Your task to perform on an android device: Clear all items from cart on costco.com. Add "razer blade" to the cart on costco.com, then select checkout. Image 0: 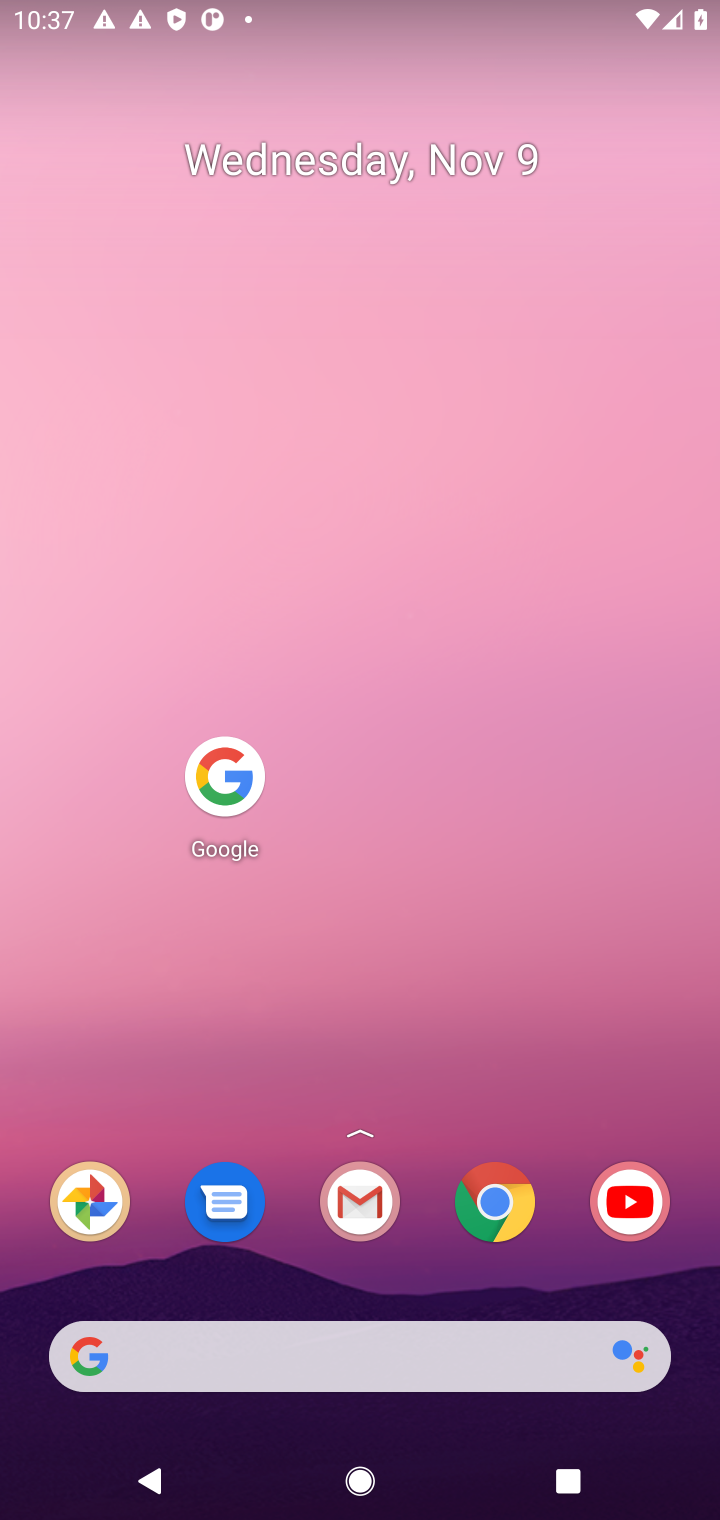
Step 0: press home button
Your task to perform on an android device: Clear all items from cart on costco.com. Add "razer blade" to the cart on costco.com, then select checkout. Image 1: 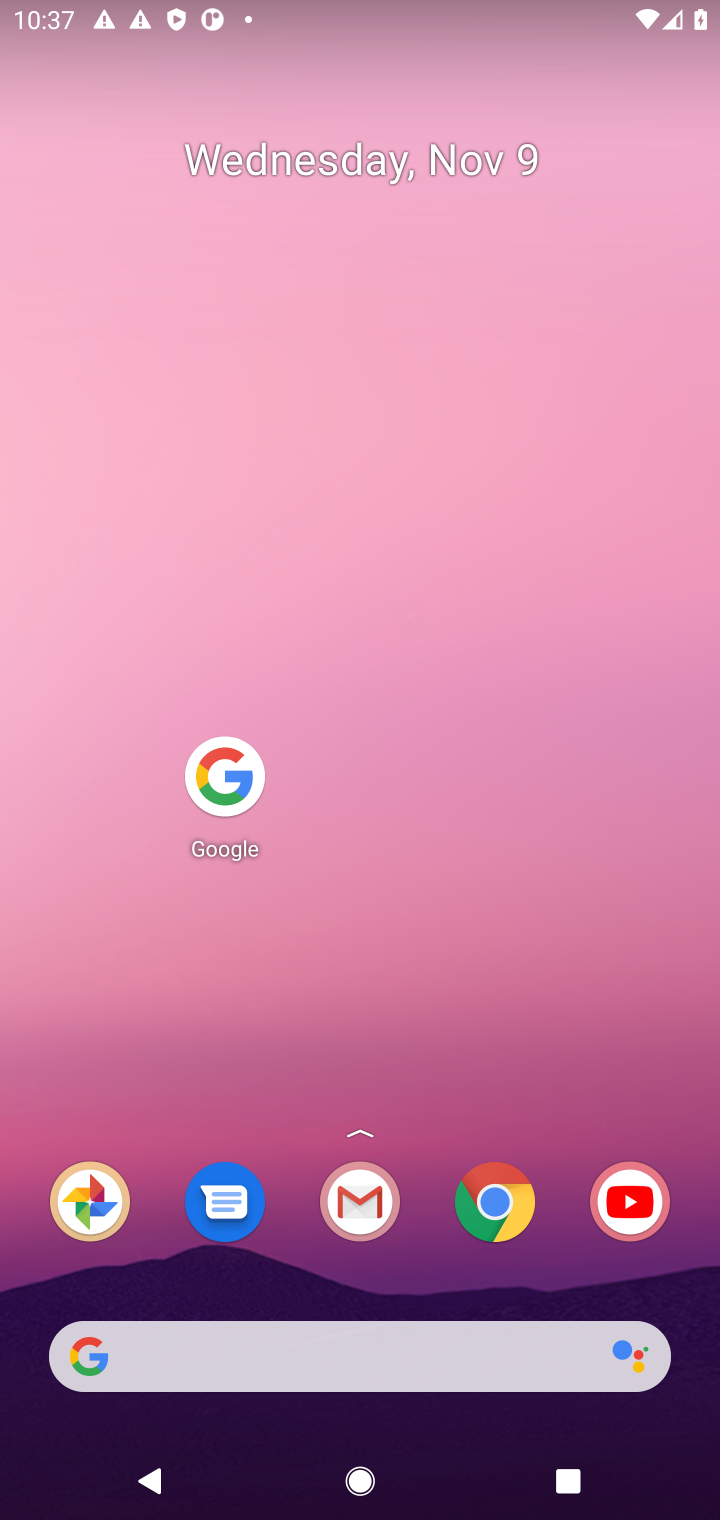
Step 1: click (233, 790)
Your task to perform on an android device: Clear all items from cart on costco.com. Add "razer blade" to the cart on costco.com, then select checkout. Image 2: 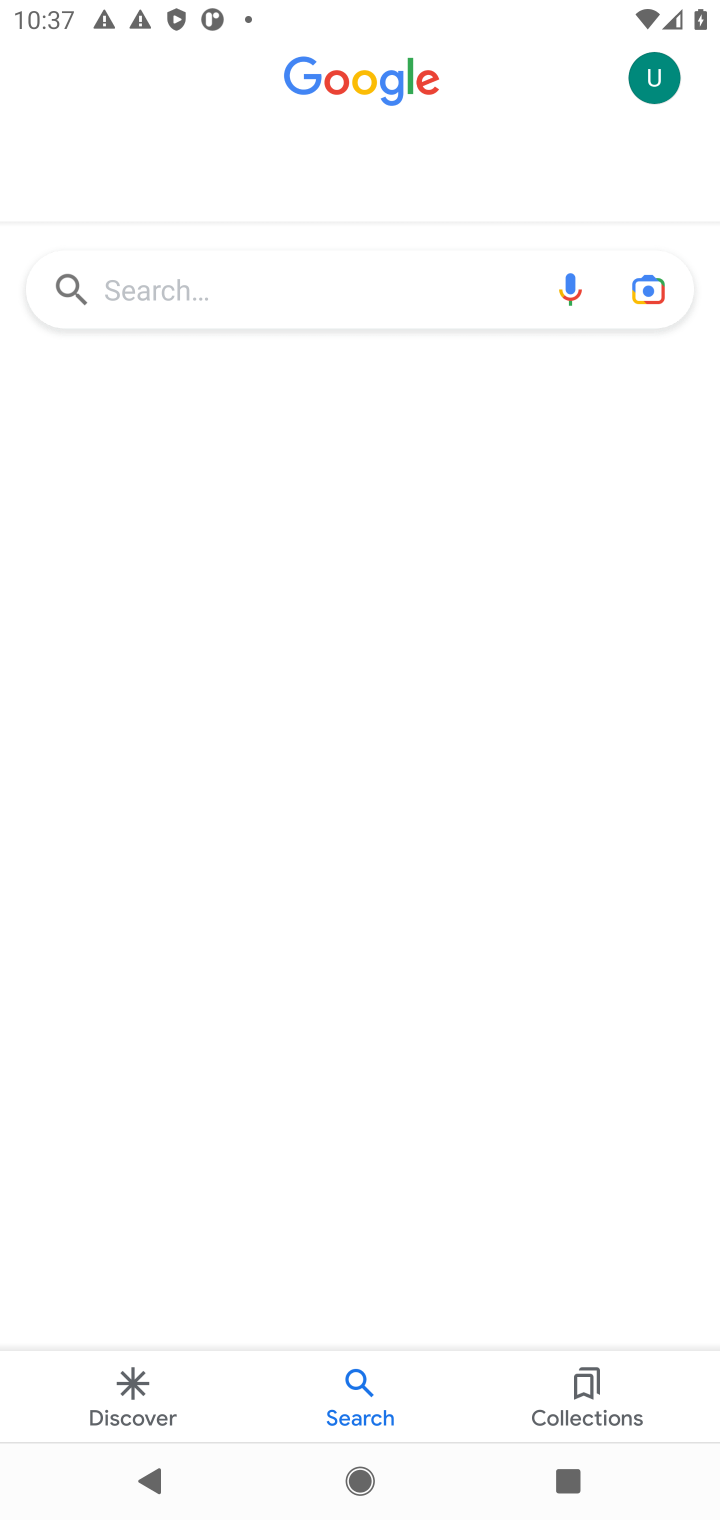
Step 2: click (233, 792)
Your task to perform on an android device: Clear all items from cart on costco.com. Add "razer blade" to the cart on costco.com, then select checkout. Image 3: 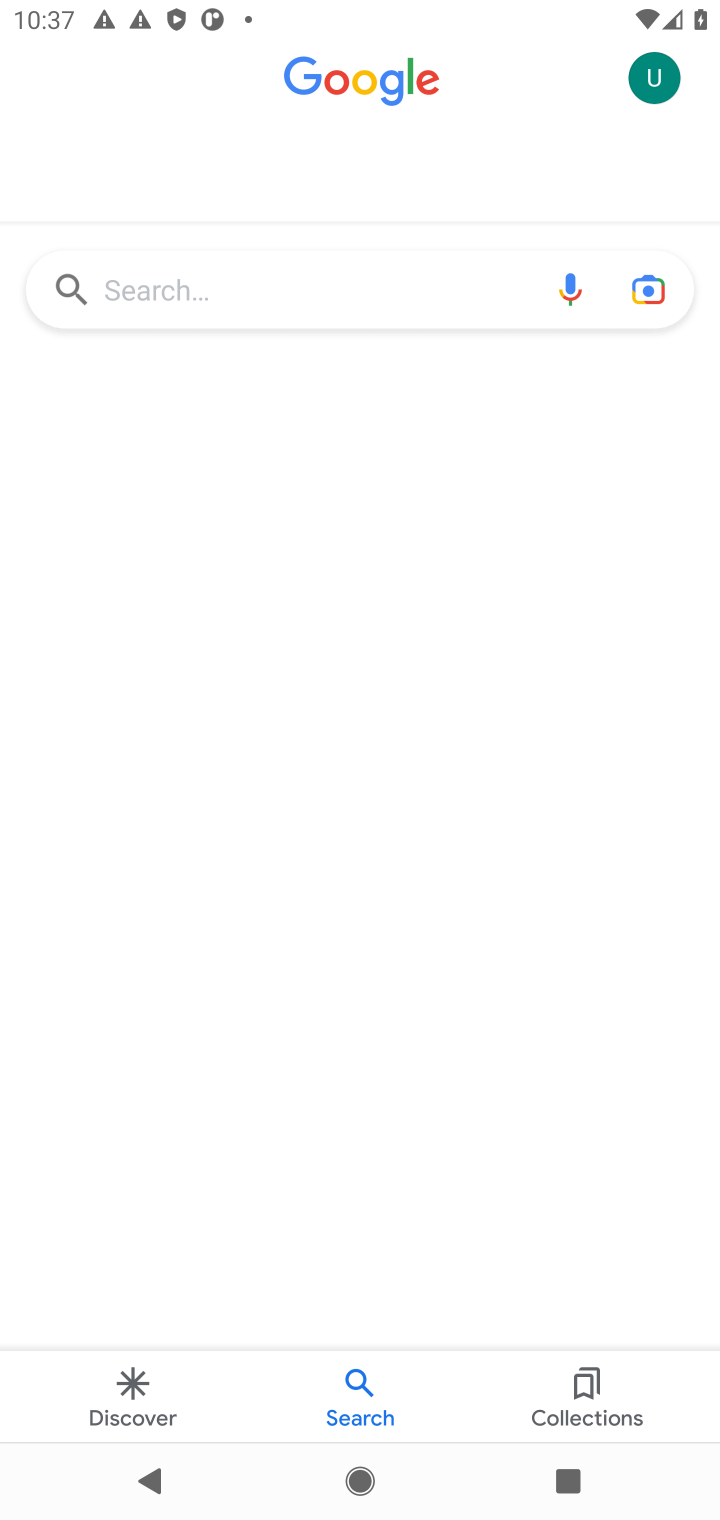
Step 3: click (355, 1372)
Your task to perform on an android device: Clear all items from cart on costco.com. Add "razer blade" to the cart on costco.com, then select checkout. Image 4: 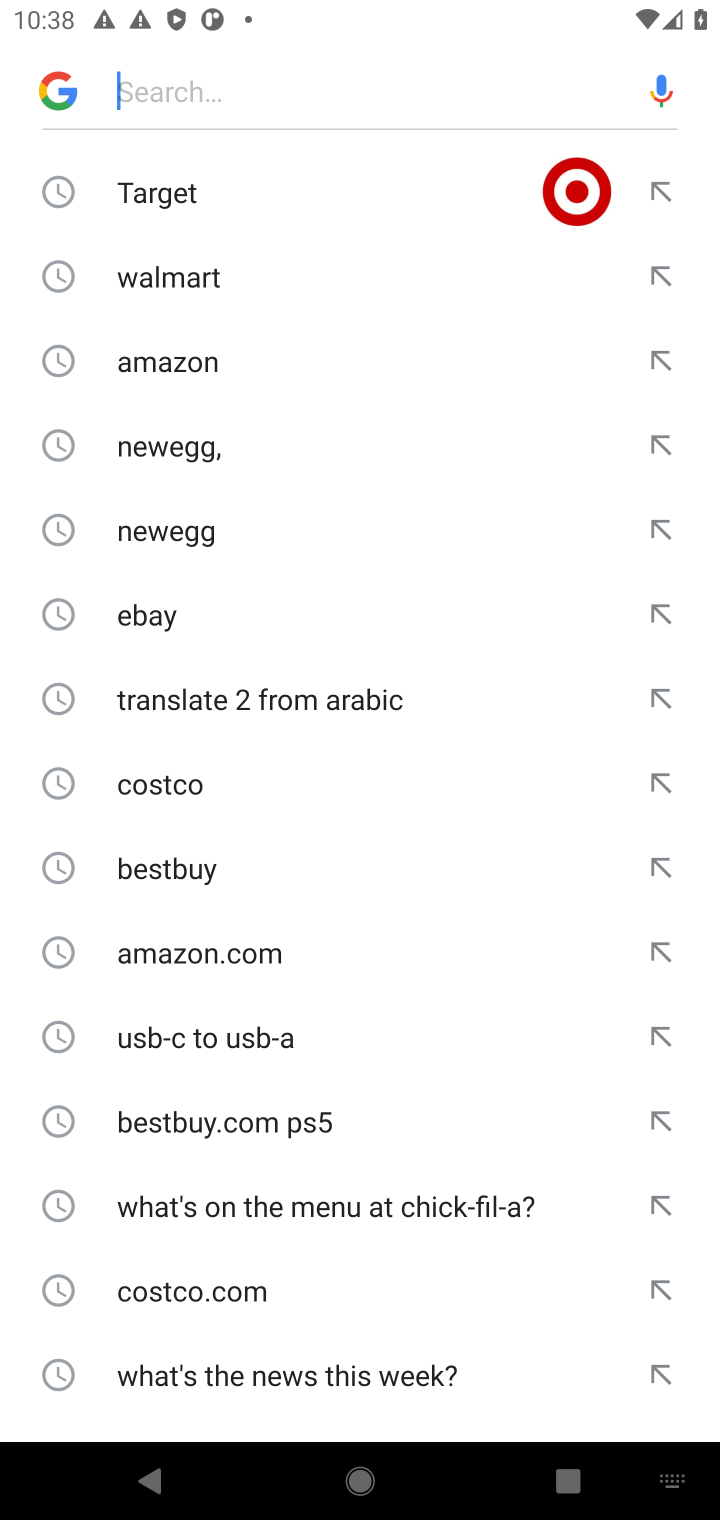
Step 4: click (148, 780)
Your task to perform on an android device: Clear all items from cart on costco.com. Add "razer blade" to the cart on costco.com, then select checkout. Image 5: 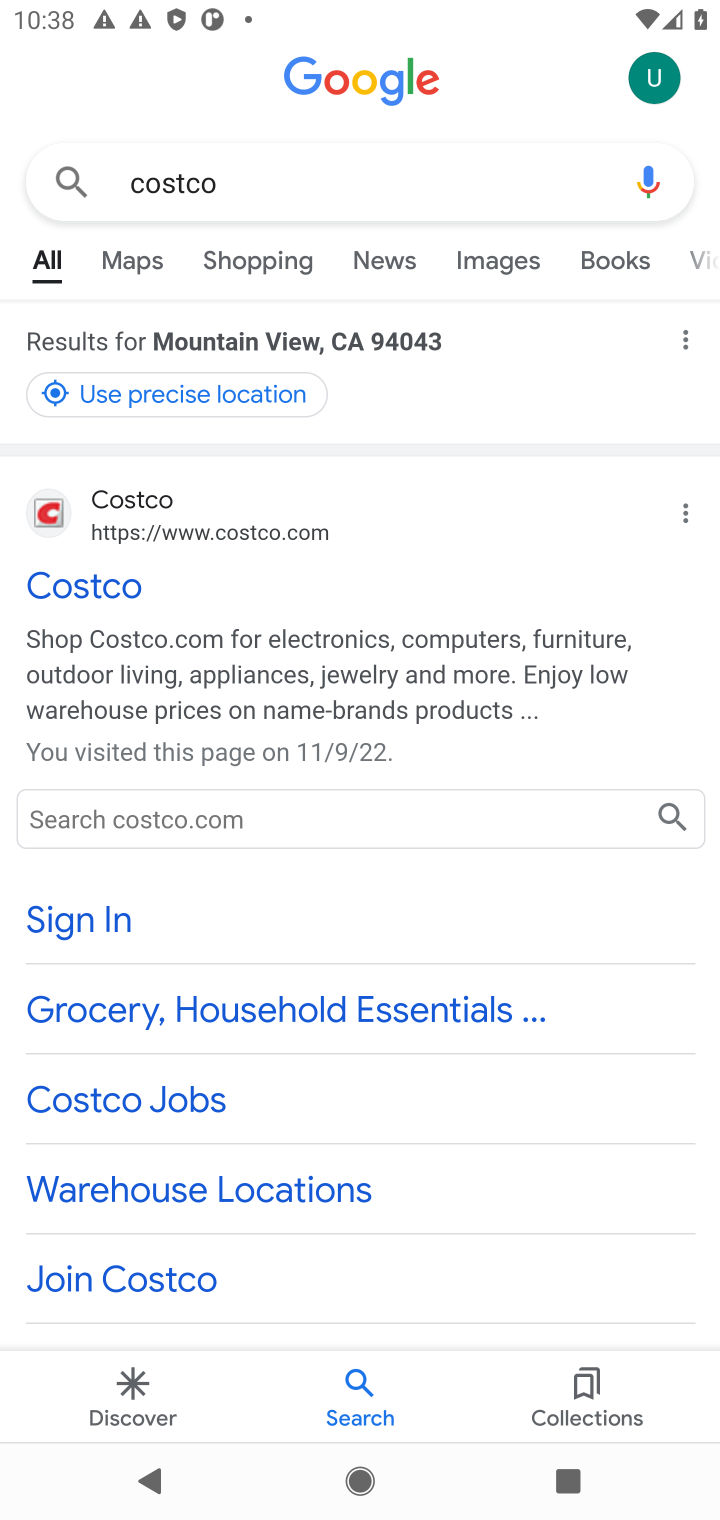
Step 5: click (104, 588)
Your task to perform on an android device: Clear all items from cart on costco.com. Add "razer blade" to the cart on costco.com, then select checkout. Image 6: 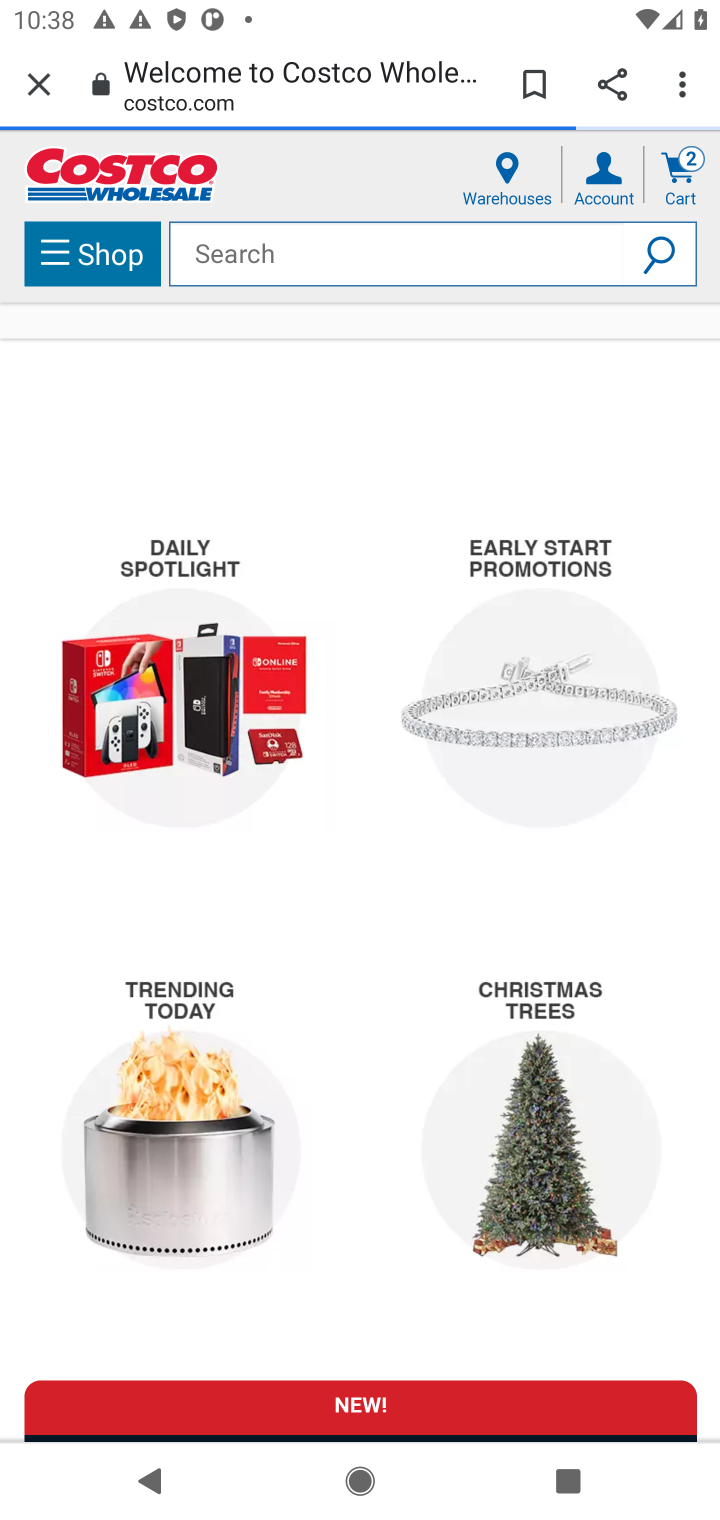
Step 6: click (337, 241)
Your task to perform on an android device: Clear all items from cart on costco.com. Add "razer blade" to the cart on costco.com, then select checkout. Image 7: 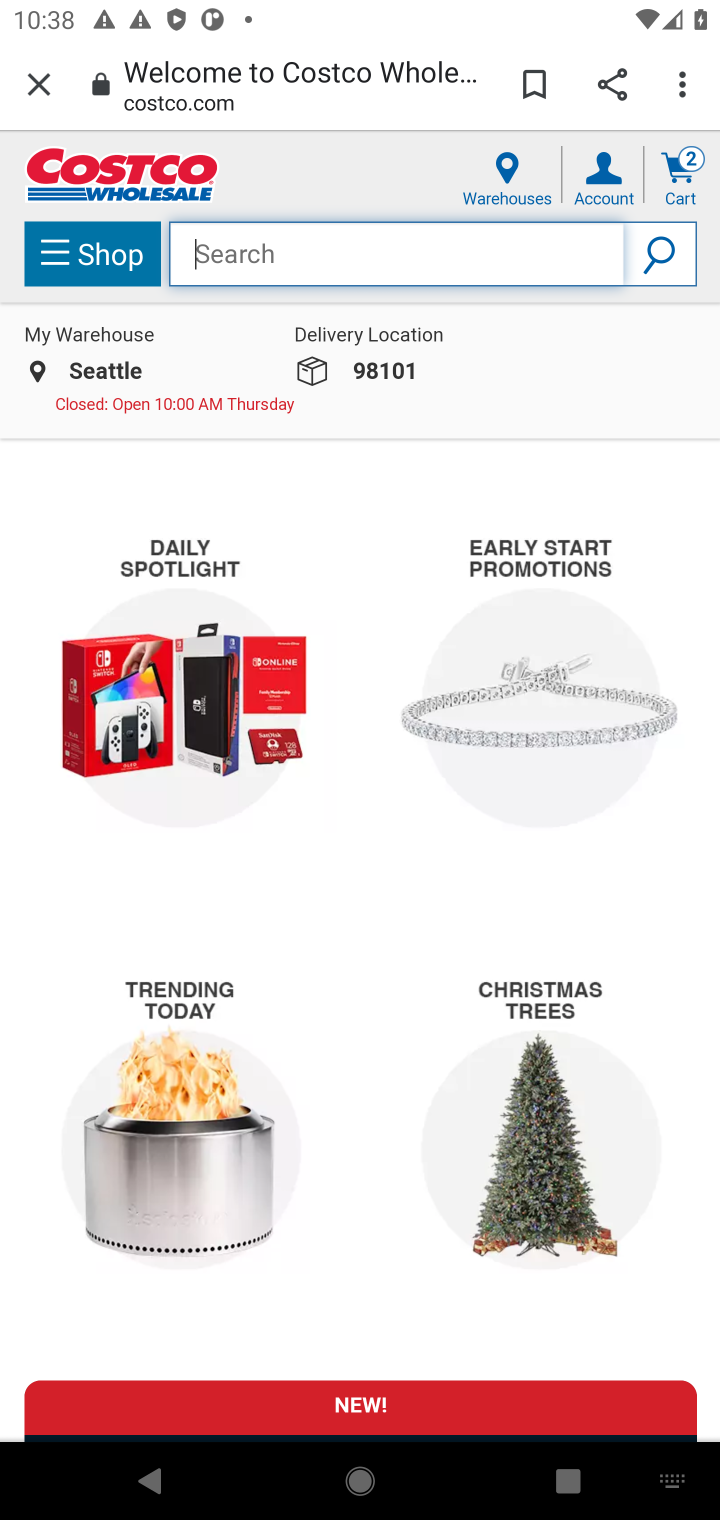
Step 7: type "razer blade"
Your task to perform on an android device: Clear all items from cart on costco.com. Add "razer blade" to the cart on costco.com, then select checkout. Image 8: 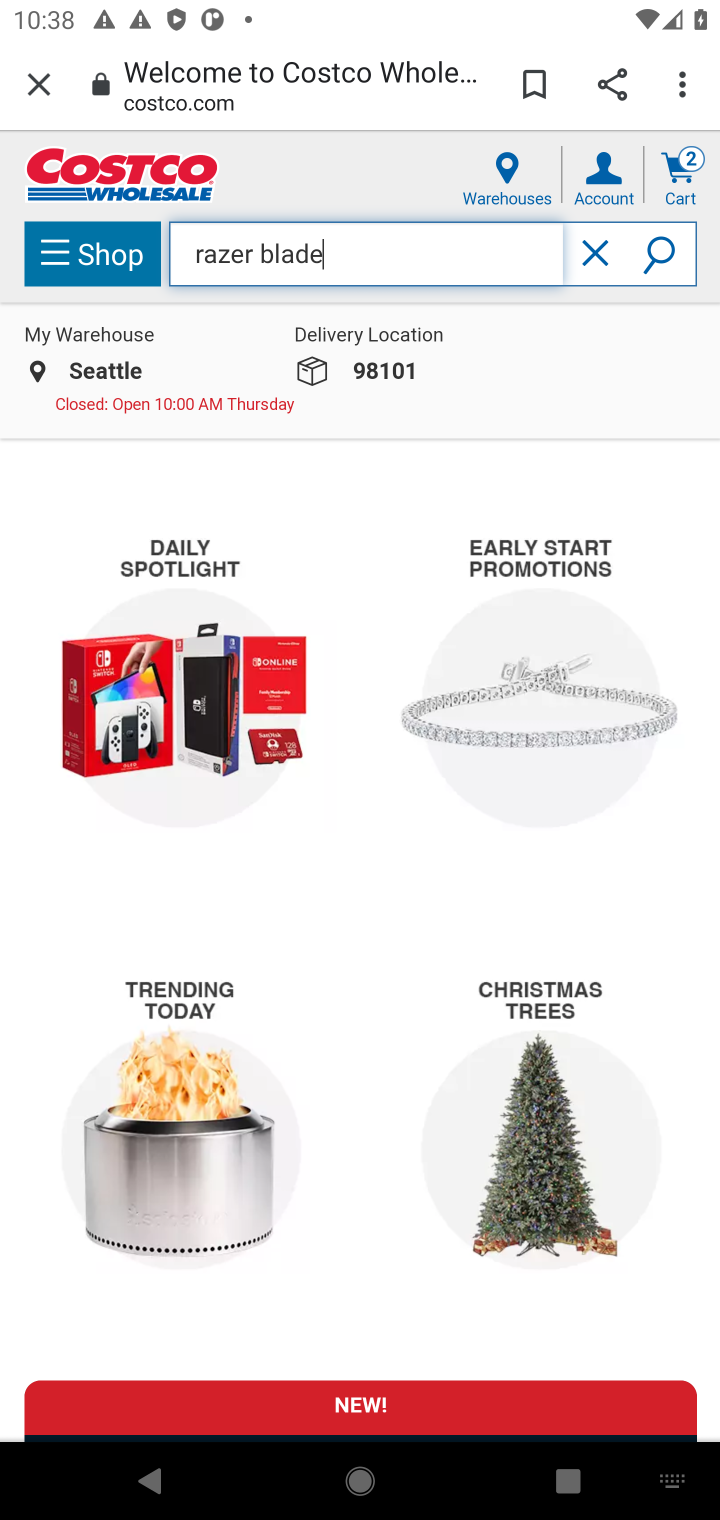
Step 8: press enter
Your task to perform on an android device: Clear all items from cart on costco.com. Add "razer blade" to the cart on costco.com, then select checkout. Image 9: 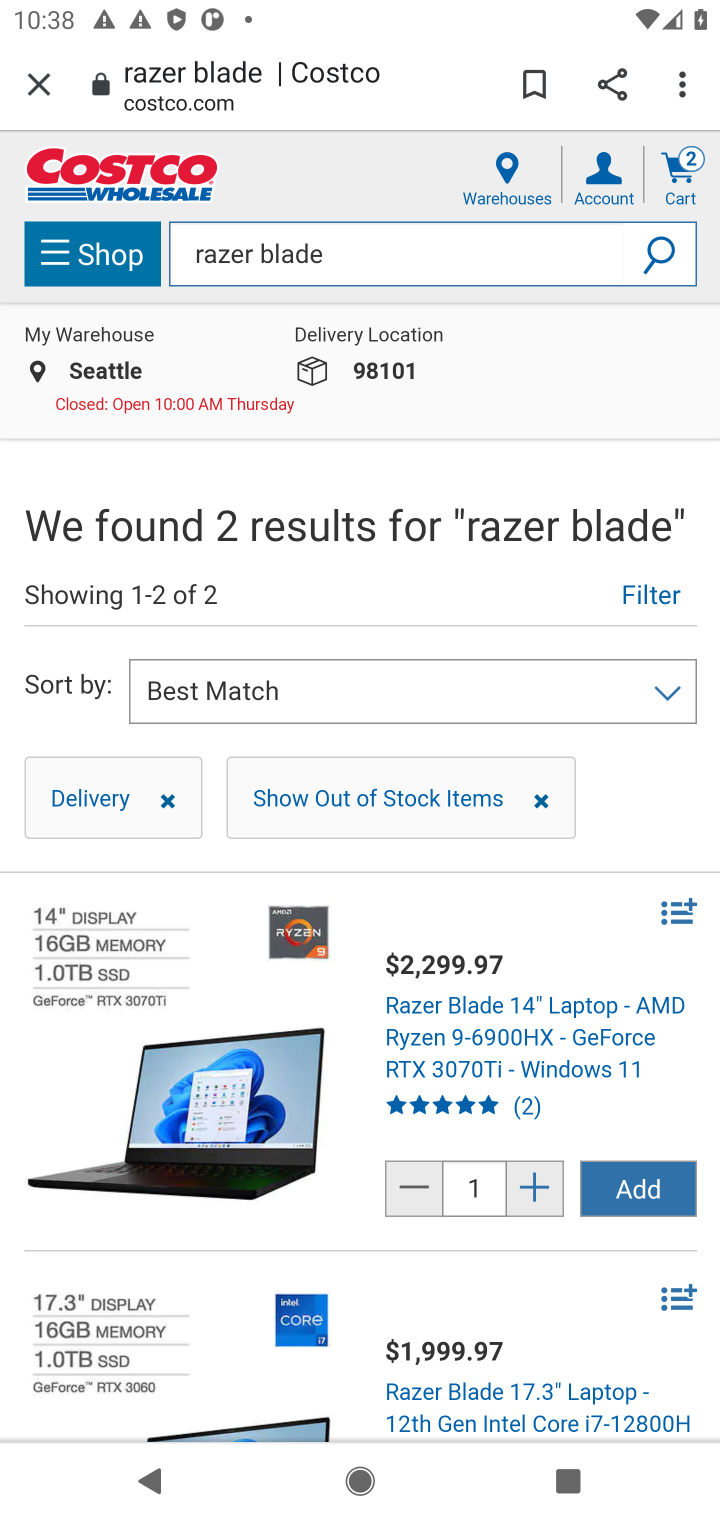
Step 9: click (644, 1196)
Your task to perform on an android device: Clear all items from cart on costco.com. Add "razer blade" to the cart on costco.com, then select checkout. Image 10: 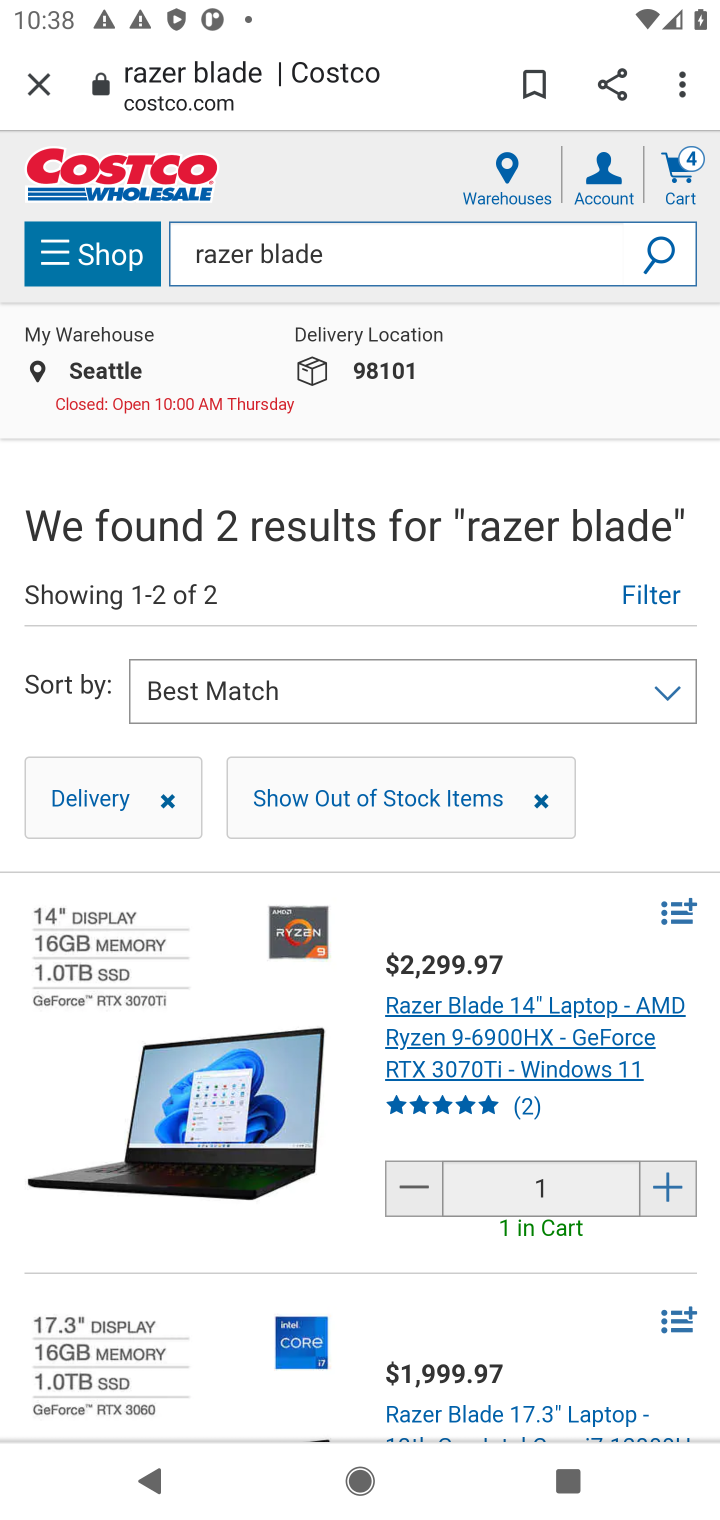
Step 10: click (677, 183)
Your task to perform on an android device: Clear all items from cart on costco.com. Add "razer blade" to the cart on costco.com, then select checkout. Image 11: 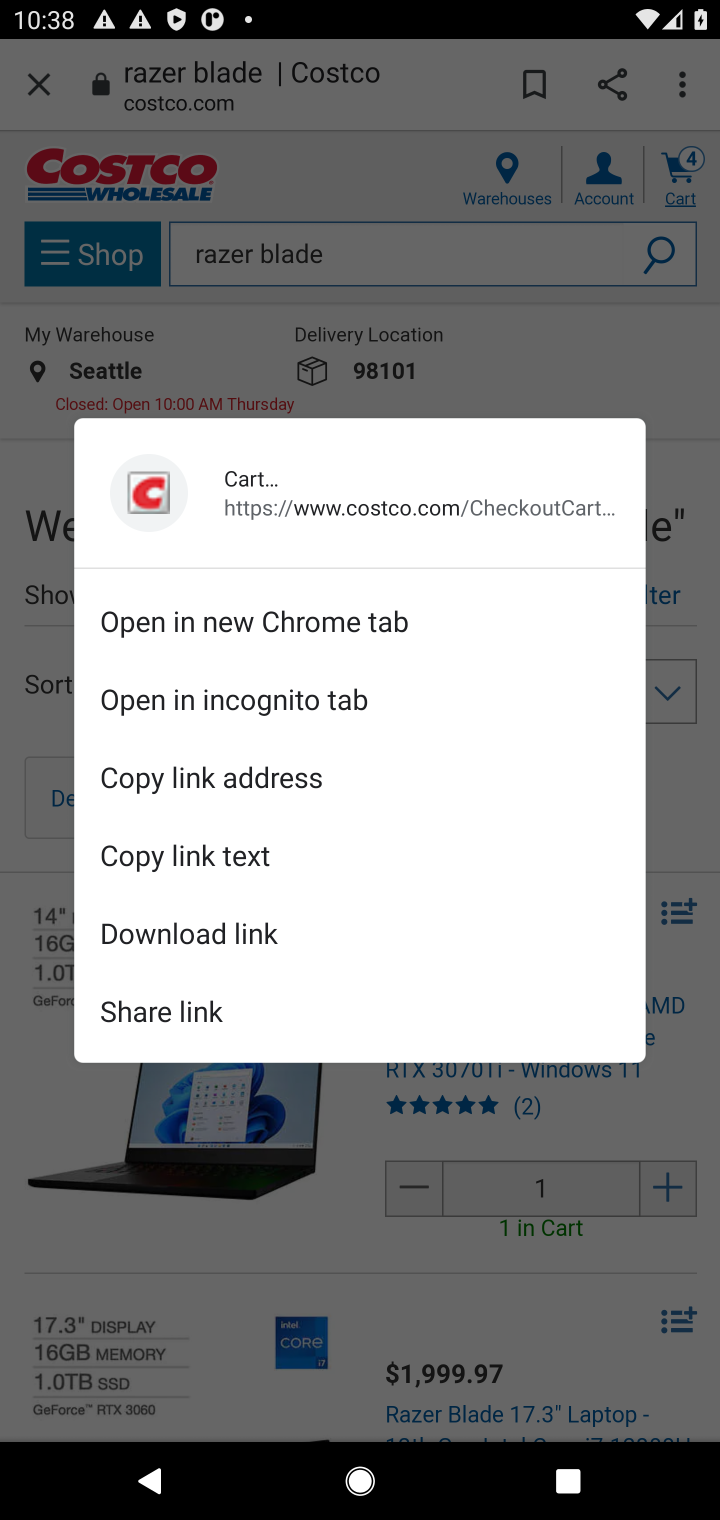
Step 11: click (678, 168)
Your task to perform on an android device: Clear all items from cart on costco.com. Add "razer blade" to the cart on costco.com, then select checkout. Image 12: 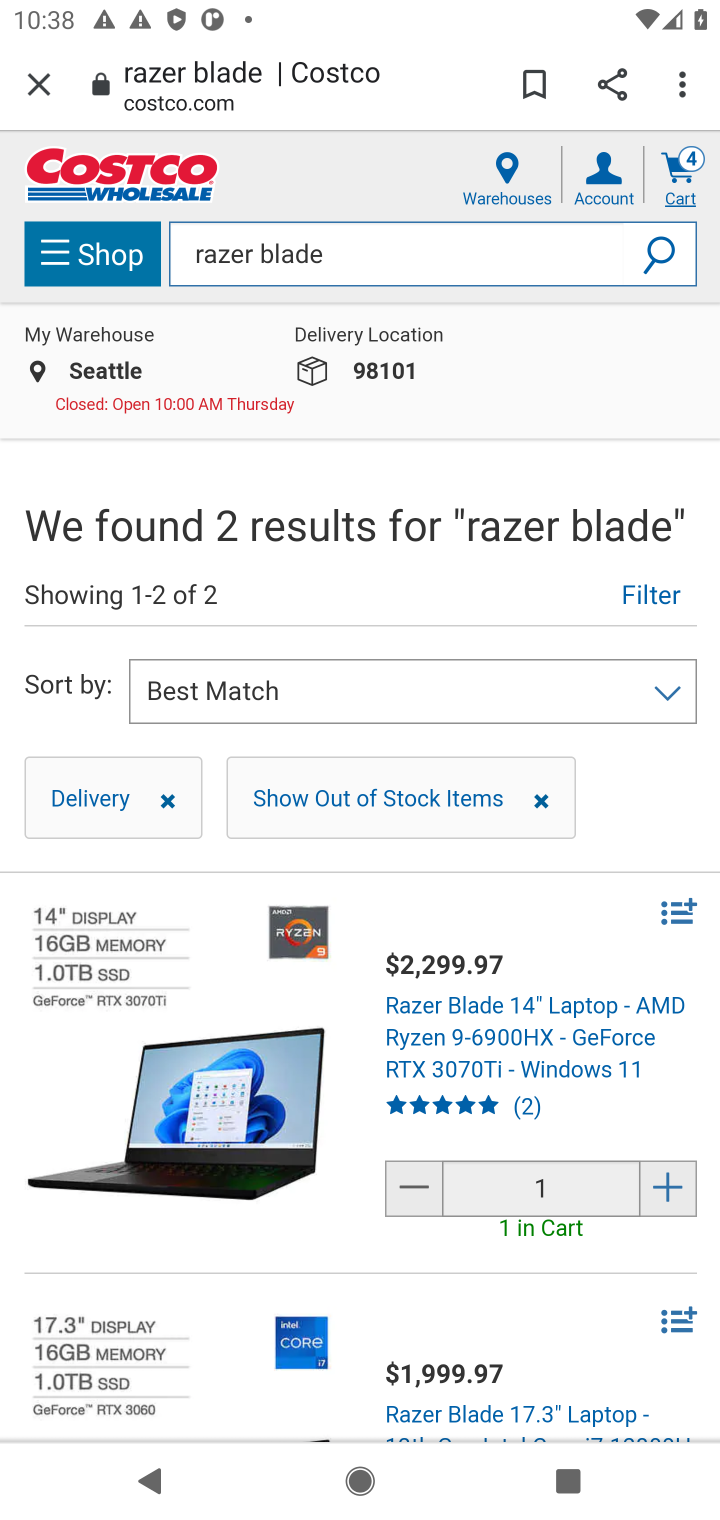
Step 12: click (684, 162)
Your task to perform on an android device: Clear all items from cart on costco.com. Add "razer blade" to the cart on costco.com, then select checkout. Image 13: 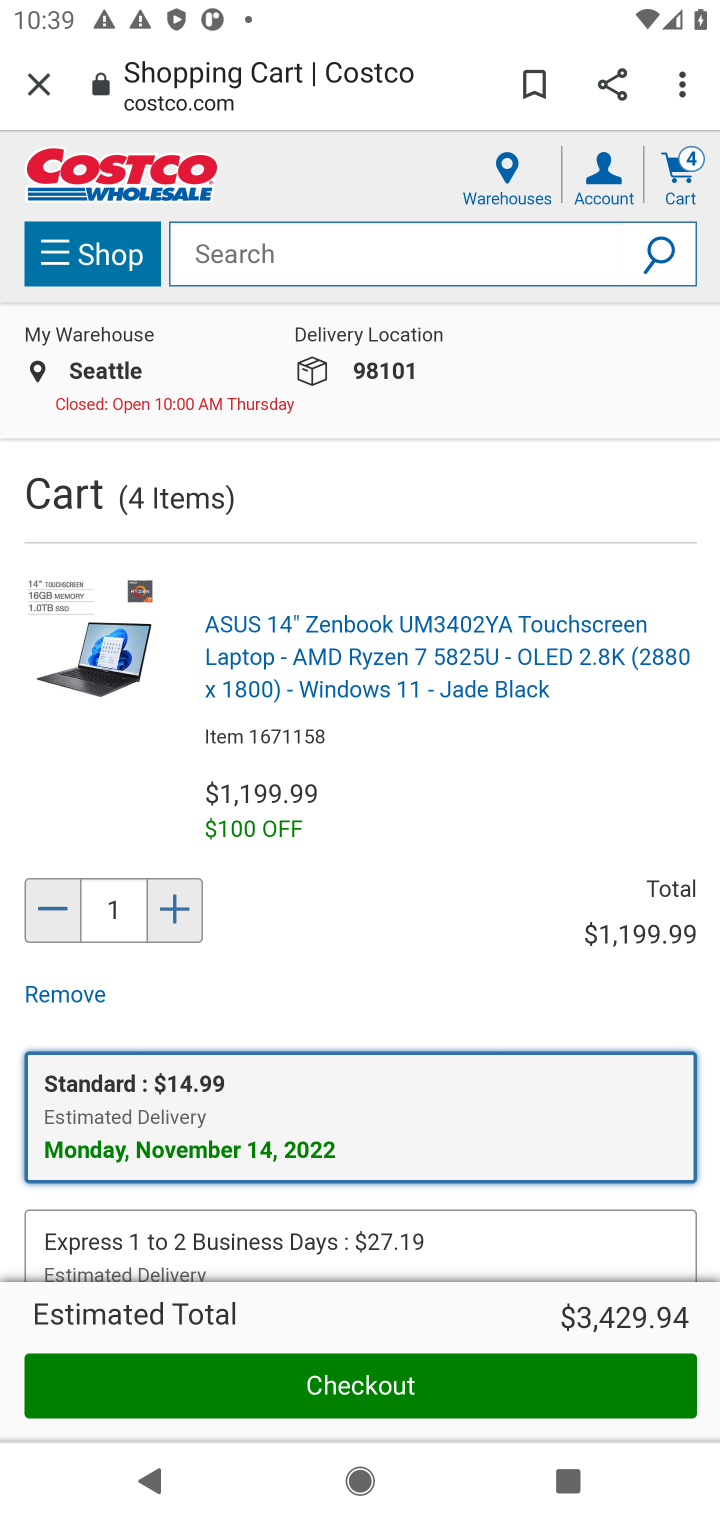
Step 13: drag from (304, 1164) to (494, 820)
Your task to perform on an android device: Clear all items from cart on costco.com. Add "razer blade" to the cart on costco.com, then select checkout. Image 14: 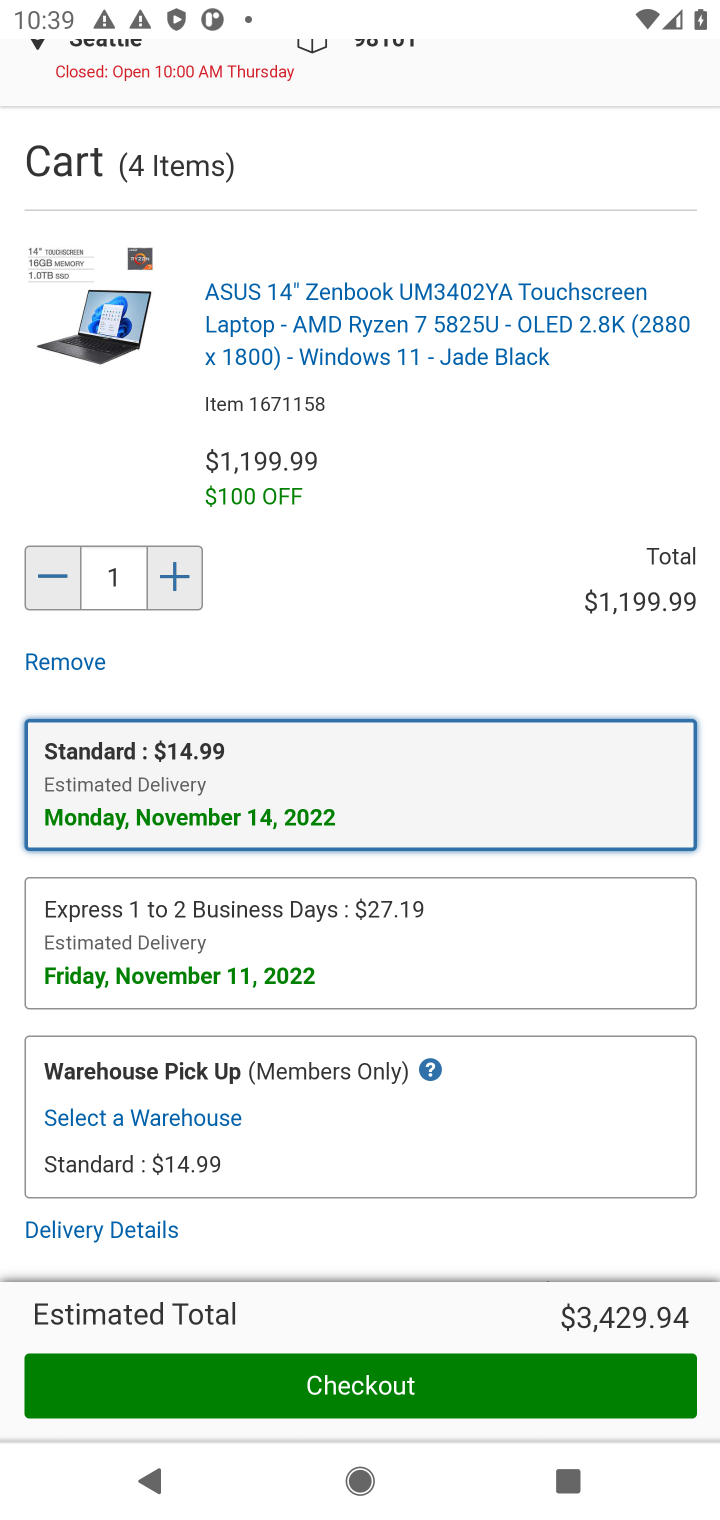
Step 14: click (80, 663)
Your task to perform on an android device: Clear all items from cart on costco.com. Add "razer blade" to the cart on costco.com, then select checkout. Image 15: 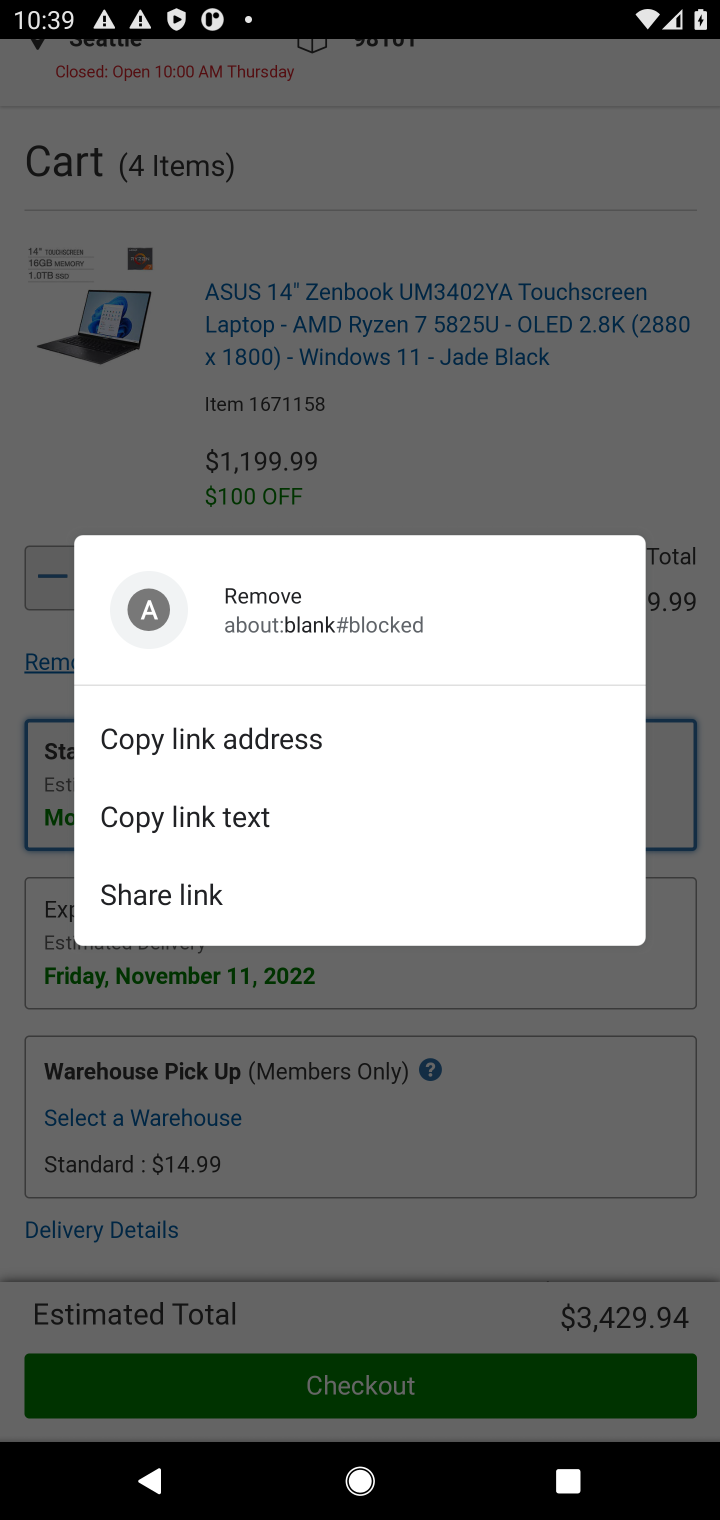
Step 15: click (262, 590)
Your task to perform on an android device: Clear all items from cart on costco.com. Add "razer blade" to the cart on costco.com, then select checkout. Image 16: 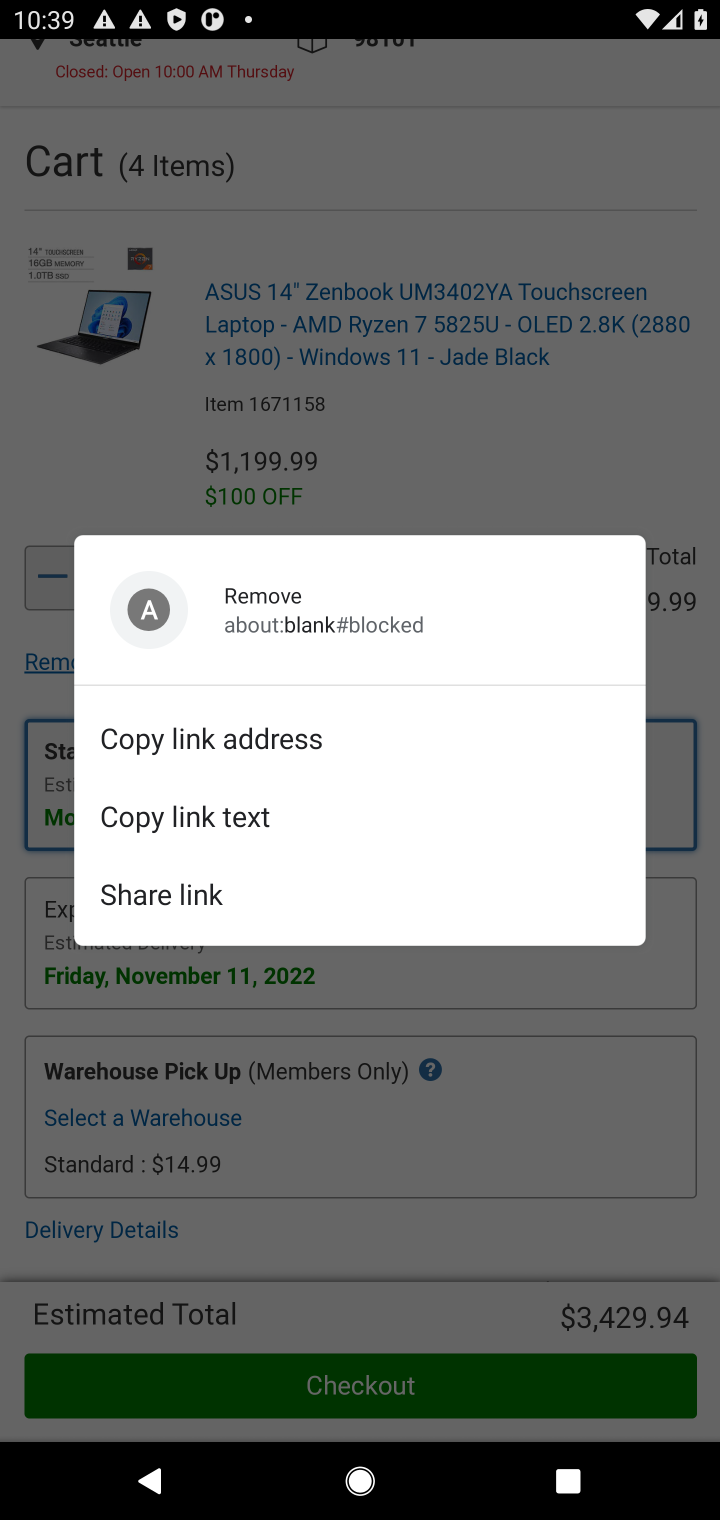
Step 16: click (75, 417)
Your task to perform on an android device: Clear all items from cart on costco.com. Add "razer blade" to the cart on costco.com, then select checkout. Image 17: 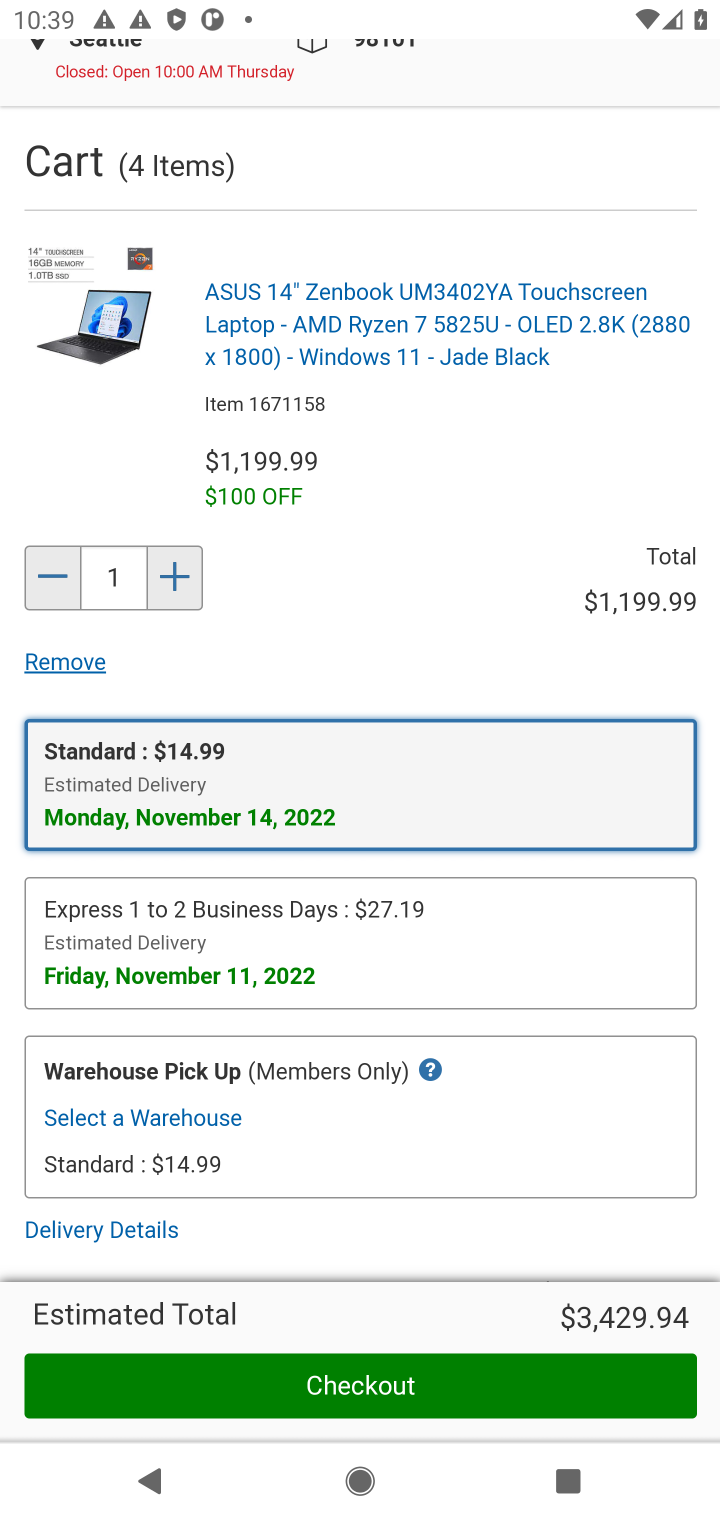
Step 17: click (52, 662)
Your task to perform on an android device: Clear all items from cart on costco.com. Add "razer blade" to the cart on costco.com, then select checkout. Image 18: 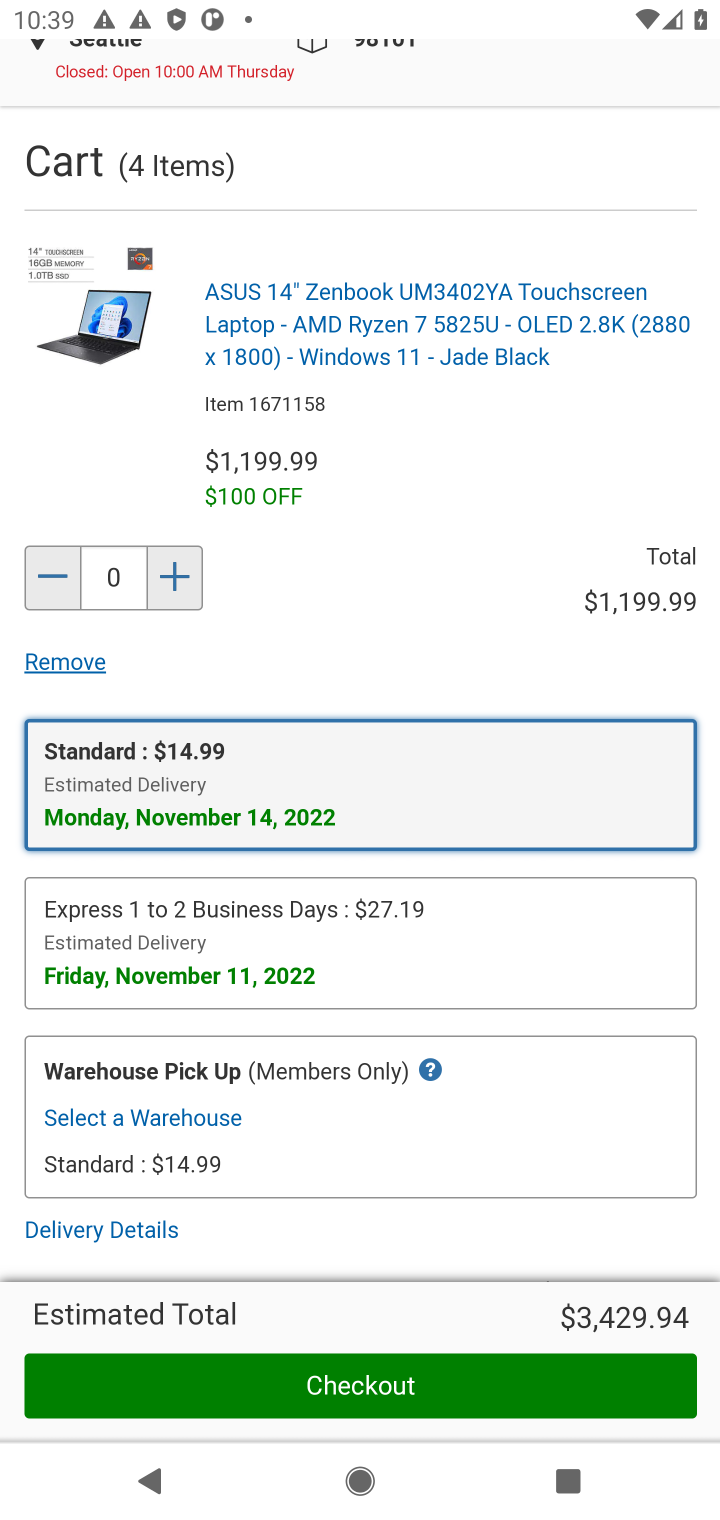
Step 18: drag from (385, 1004) to (622, 254)
Your task to perform on an android device: Clear all items from cart on costco.com. Add "razer blade" to the cart on costco.com, then select checkout. Image 19: 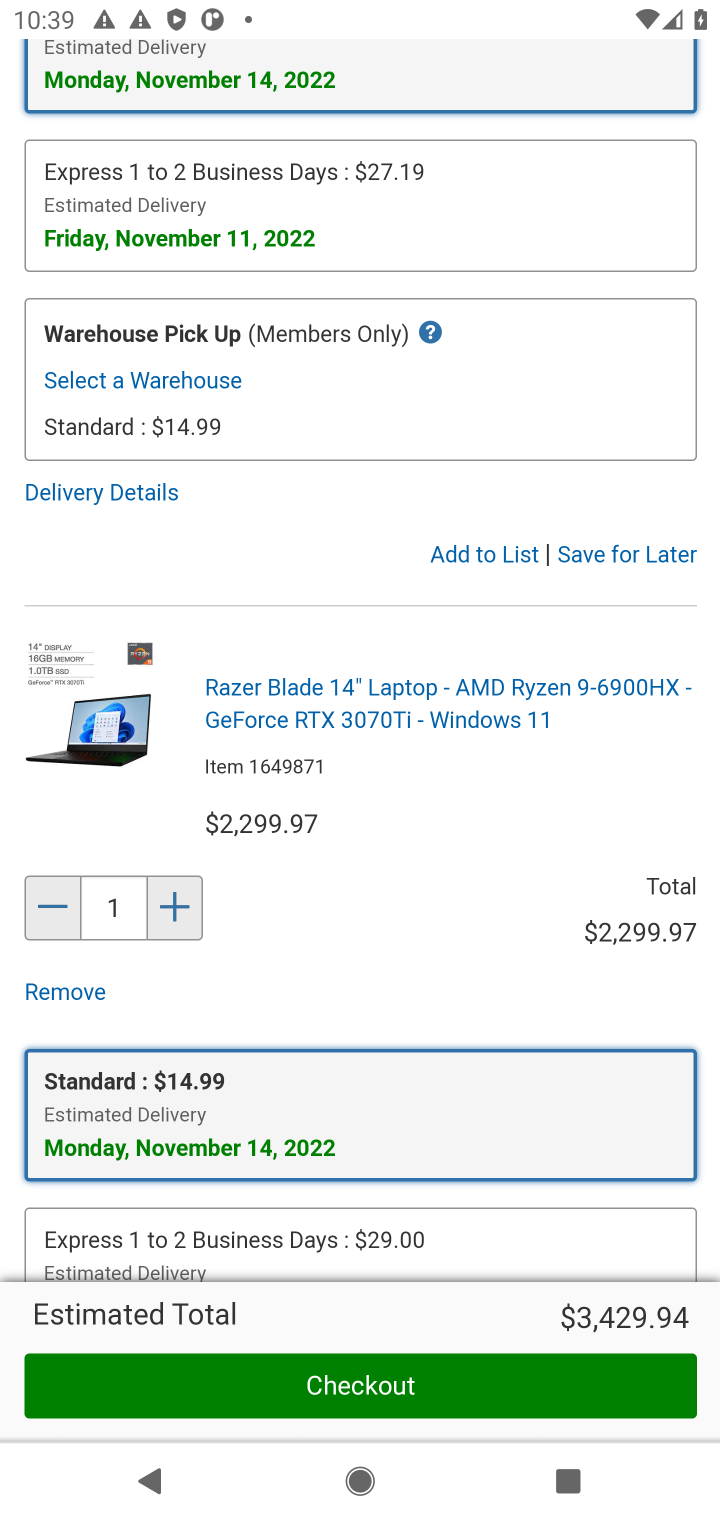
Step 19: drag from (358, 1028) to (556, 339)
Your task to perform on an android device: Clear all items from cart on costco.com. Add "razer blade" to the cart on costco.com, then select checkout. Image 20: 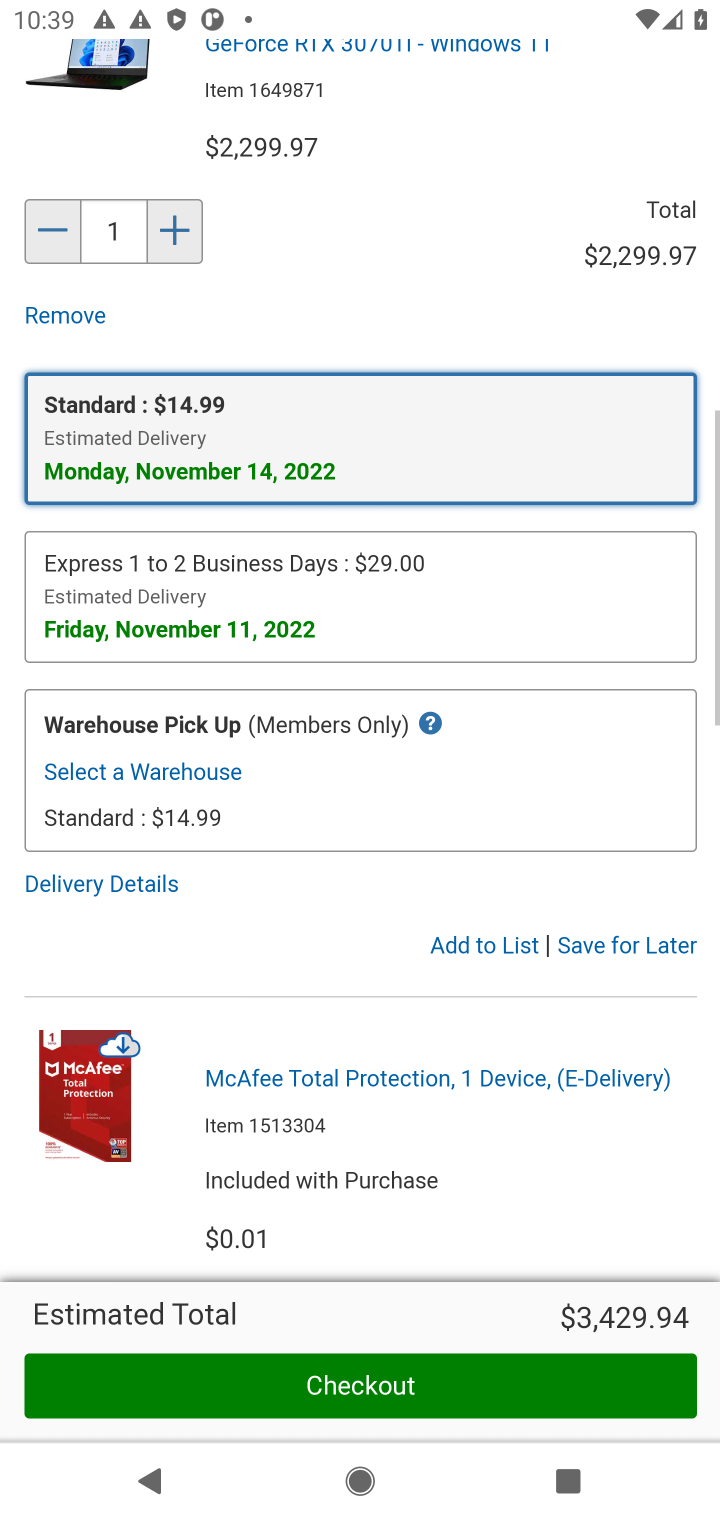
Step 20: drag from (307, 1149) to (471, 532)
Your task to perform on an android device: Clear all items from cart on costco.com. Add "razer blade" to the cart on costco.com, then select checkout. Image 21: 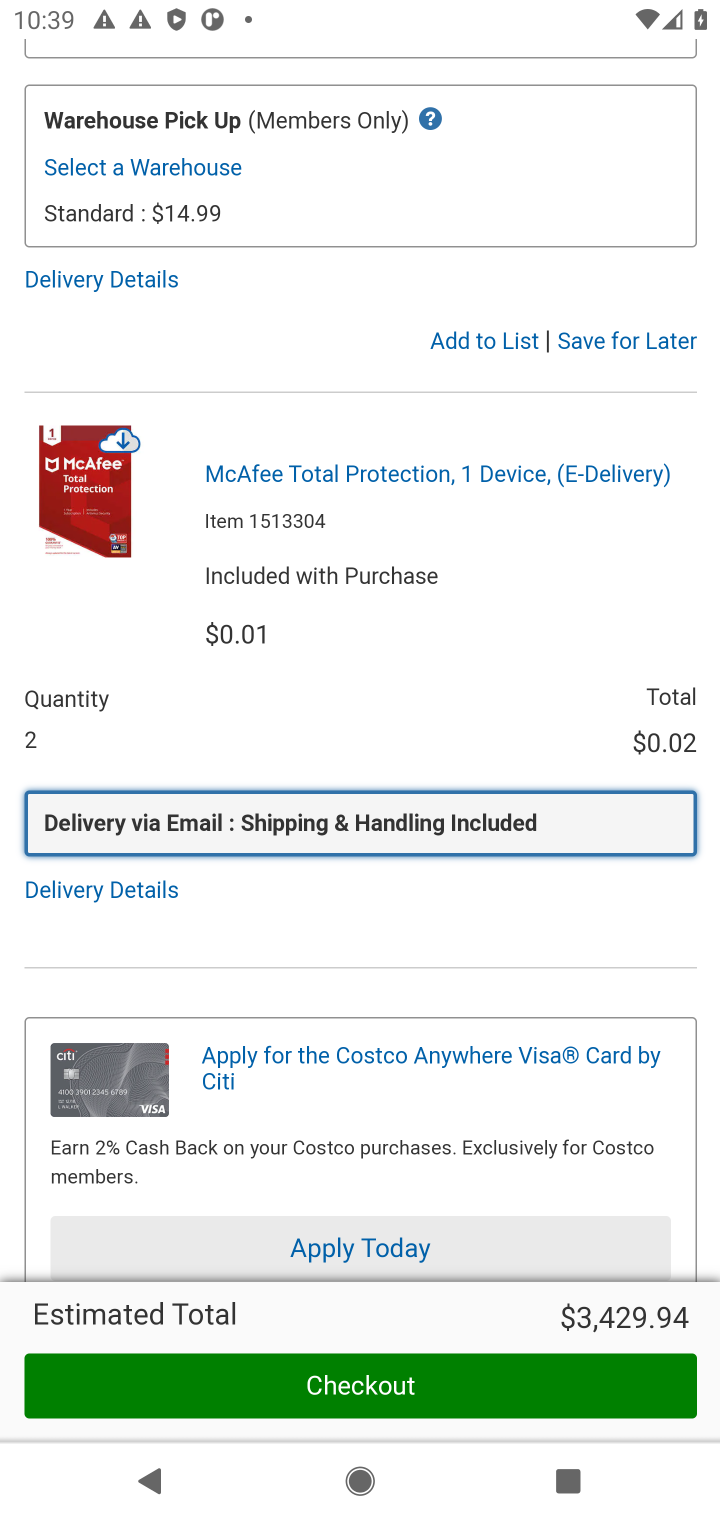
Step 21: drag from (266, 1125) to (481, 484)
Your task to perform on an android device: Clear all items from cart on costco.com. Add "razer blade" to the cart on costco.com, then select checkout. Image 22: 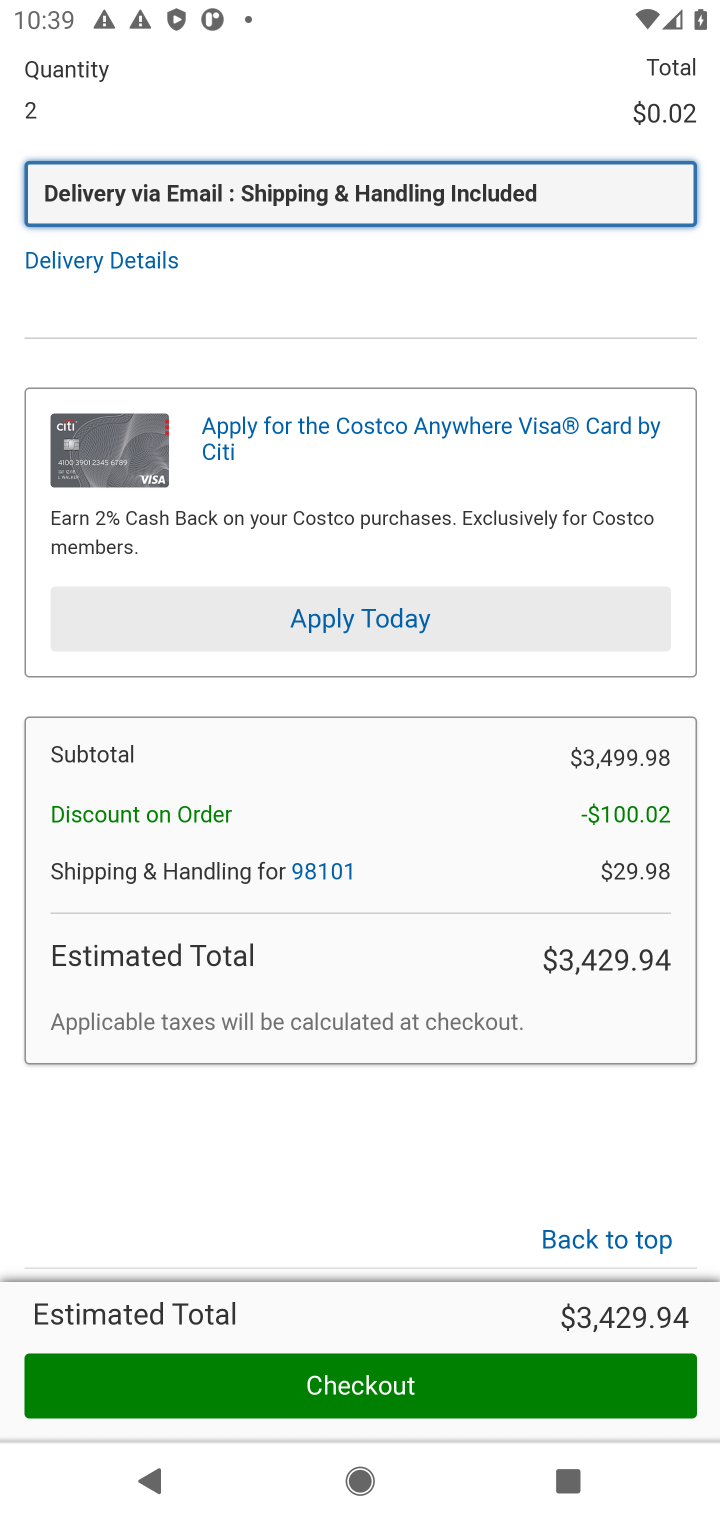
Step 22: drag from (261, 1114) to (544, 1168)
Your task to perform on an android device: Clear all items from cart on costco.com. Add "razer blade" to the cart on costco.com, then select checkout. Image 23: 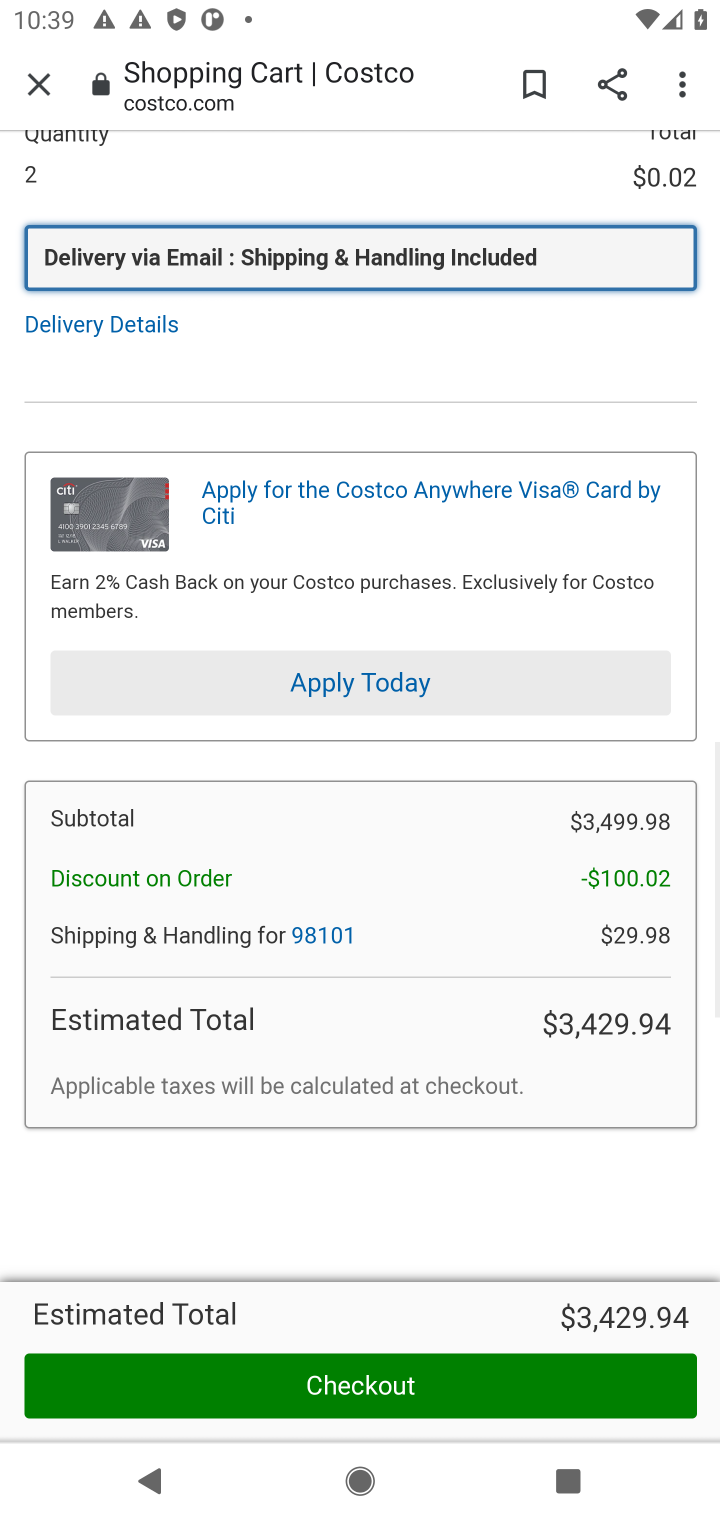
Step 23: drag from (457, 326) to (464, 910)
Your task to perform on an android device: Clear all items from cart on costco.com. Add "razer blade" to the cart on costco.com, then select checkout. Image 24: 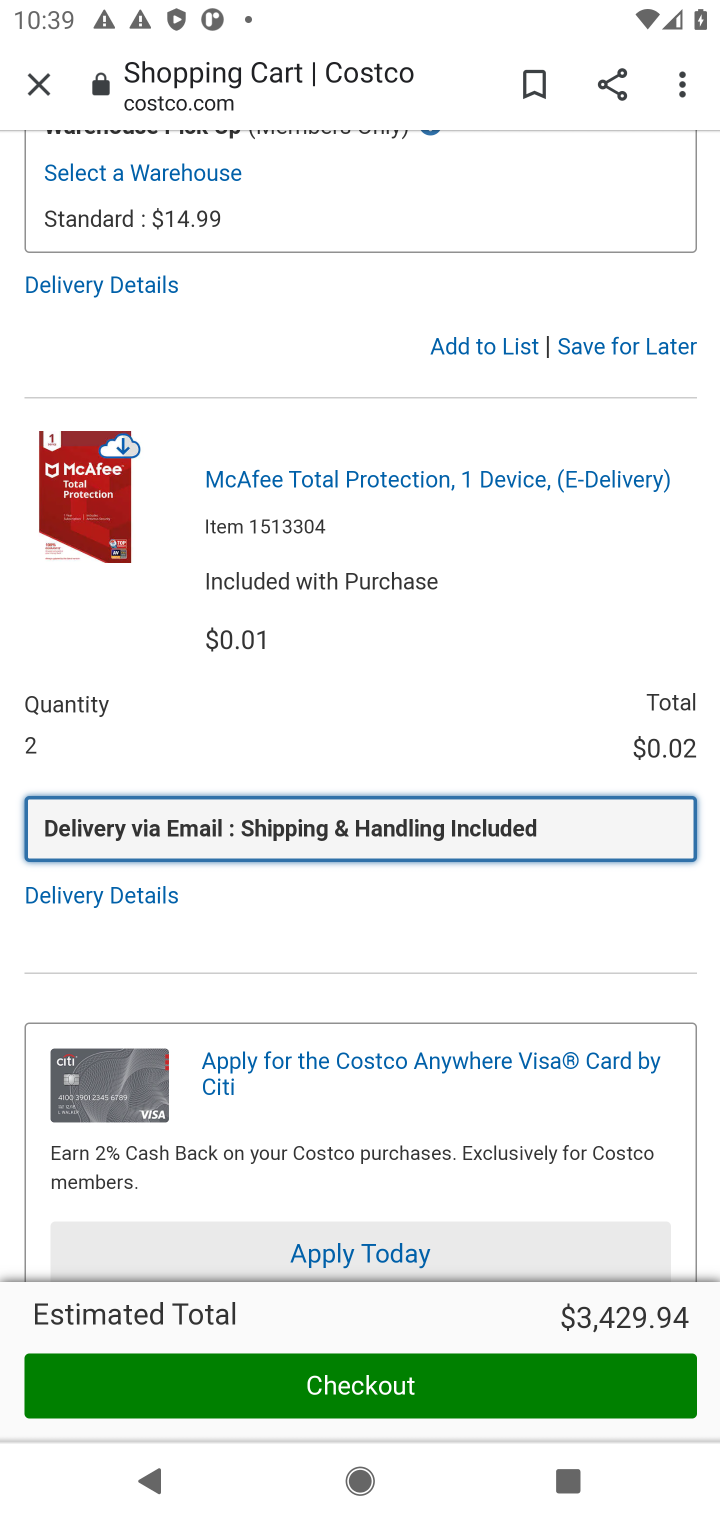
Step 24: drag from (497, 601) to (541, 1142)
Your task to perform on an android device: Clear all items from cart on costco.com. Add "razer blade" to the cart on costco.com, then select checkout. Image 25: 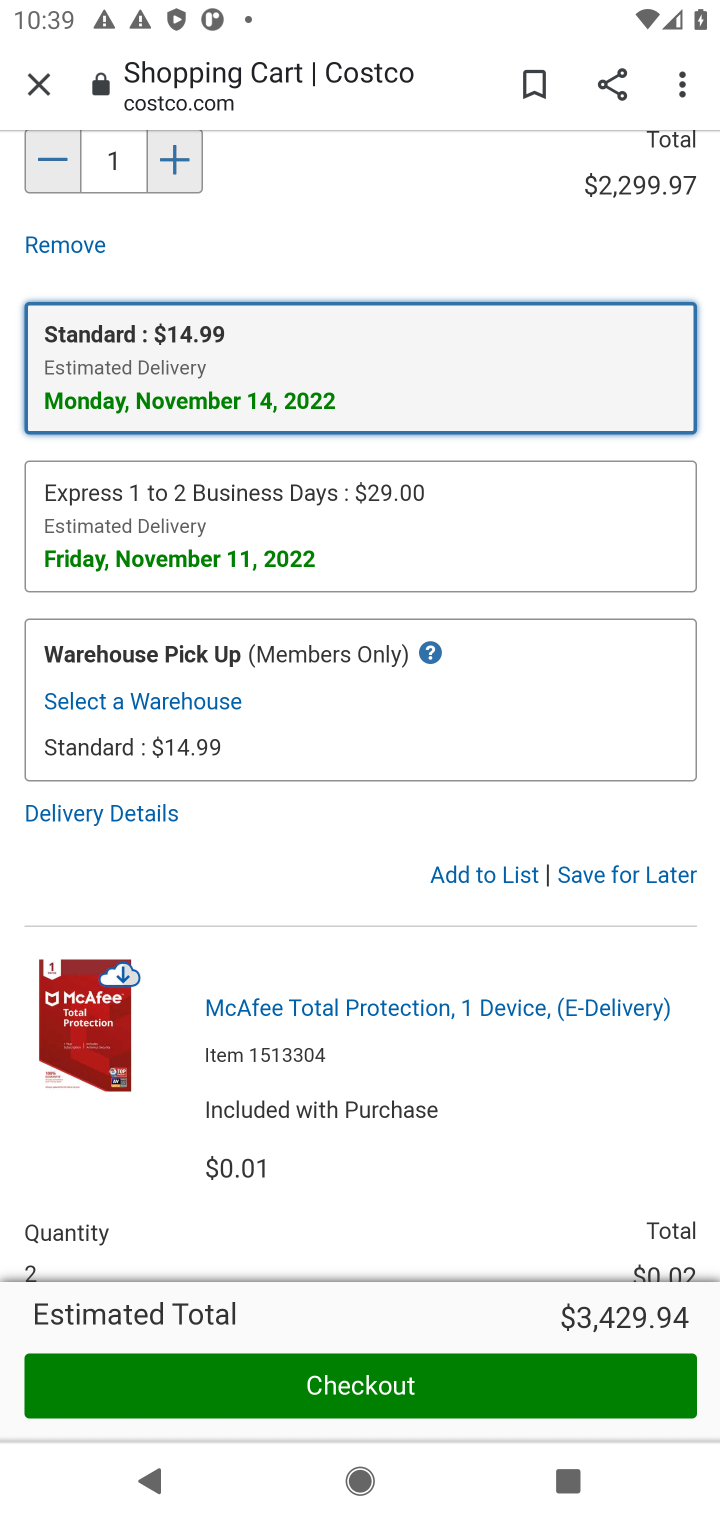
Step 25: drag from (465, 634) to (485, 964)
Your task to perform on an android device: Clear all items from cart on costco.com. Add "razer blade" to the cart on costco.com, then select checkout. Image 26: 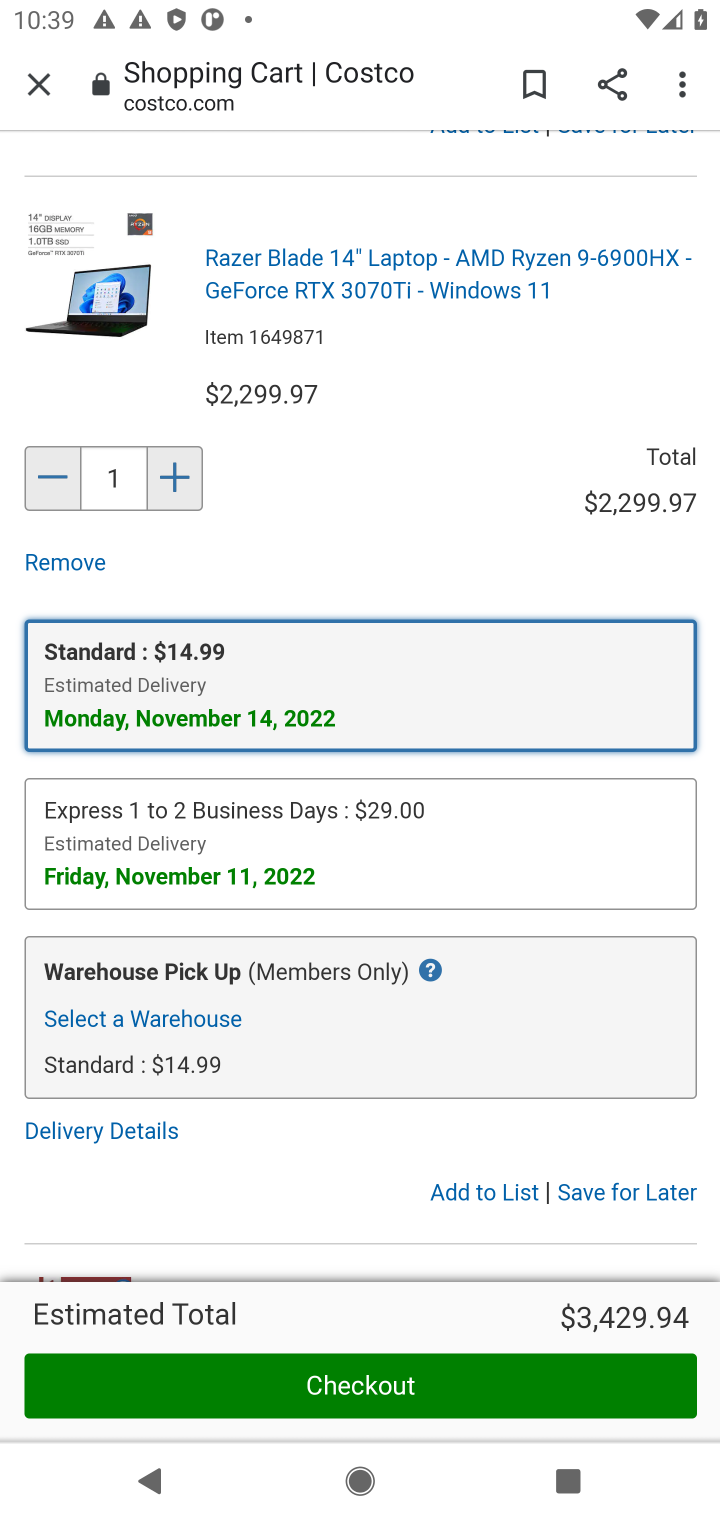
Step 26: drag from (545, 357) to (518, 1103)
Your task to perform on an android device: Clear all items from cart on costco.com. Add "razer blade" to the cart on costco.com, then select checkout. Image 27: 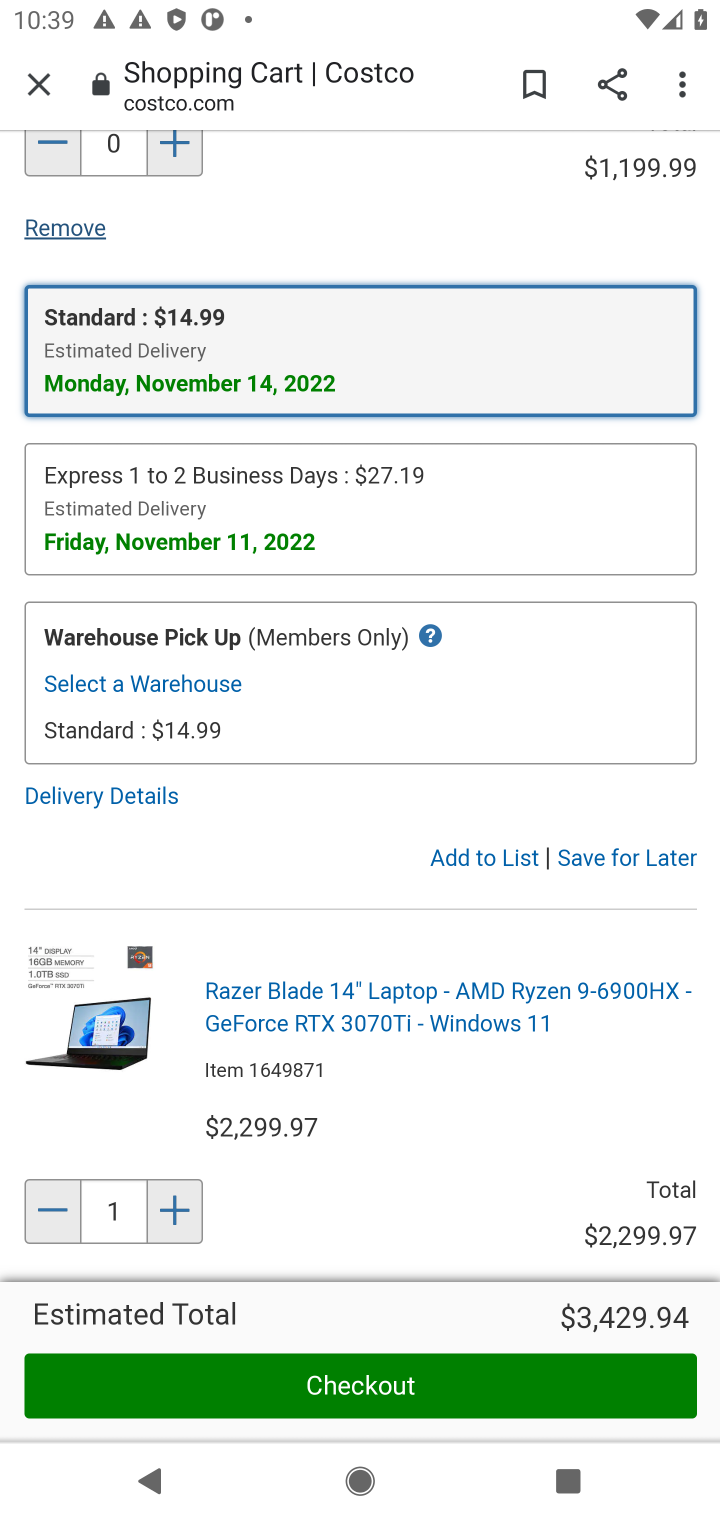
Step 27: drag from (467, 185) to (552, 752)
Your task to perform on an android device: Clear all items from cart on costco.com. Add "razer blade" to the cart on costco.com, then select checkout. Image 28: 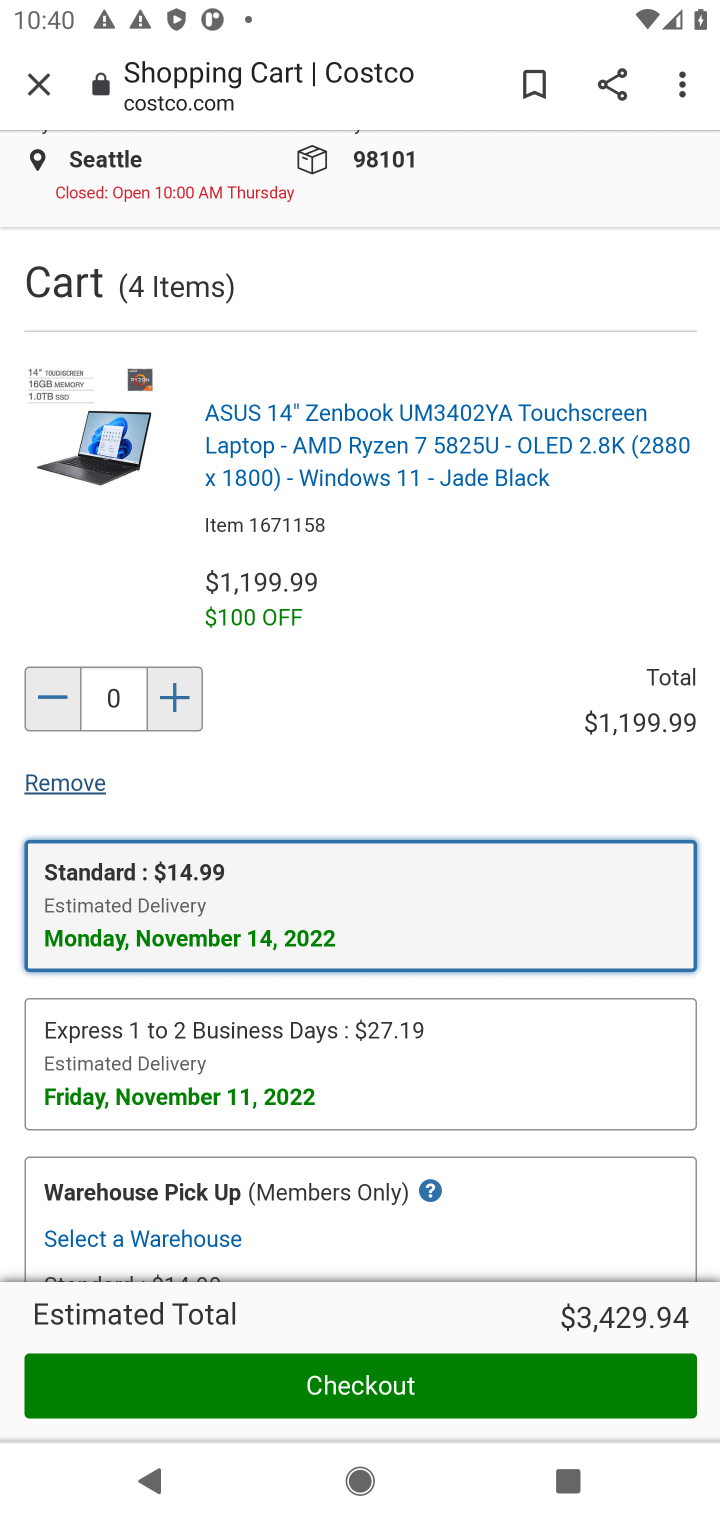
Step 28: click (72, 780)
Your task to perform on an android device: Clear all items from cart on costco.com. Add "razer blade" to the cart on costco.com, then select checkout. Image 29: 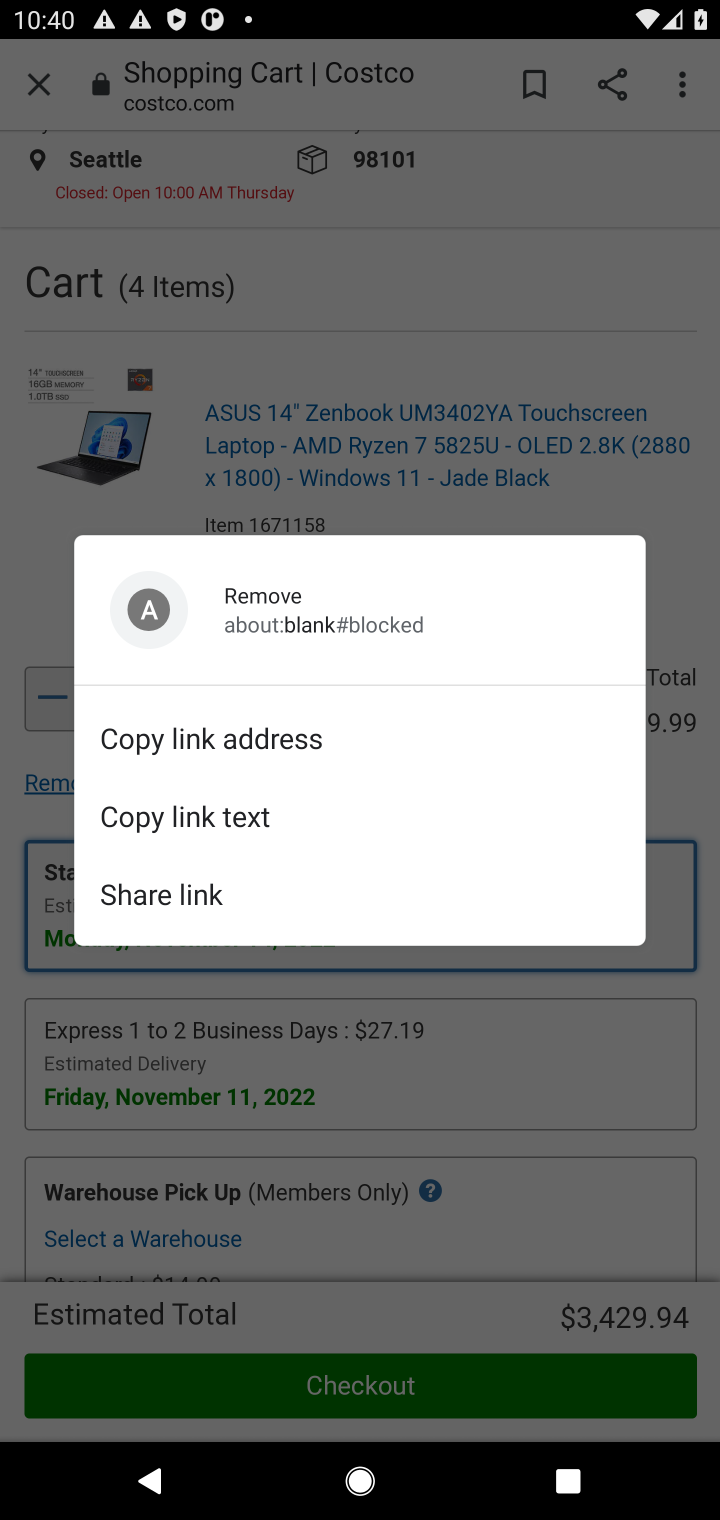
Step 29: click (46, 772)
Your task to perform on an android device: Clear all items from cart on costco.com. Add "razer blade" to the cart on costco.com, then select checkout. Image 30: 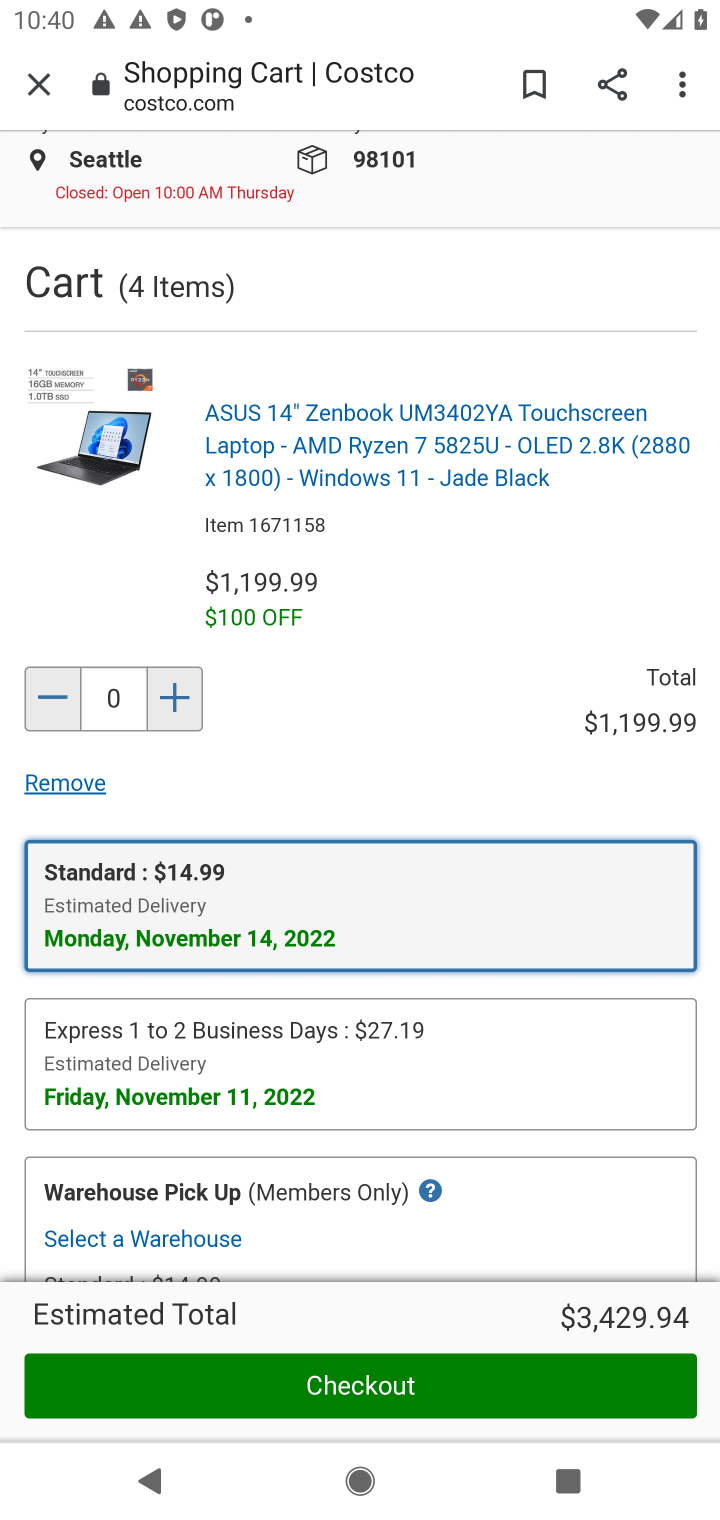
Step 30: click (490, 1389)
Your task to perform on an android device: Clear all items from cart on costco.com. Add "razer blade" to the cart on costco.com, then select checkout. Image 31: 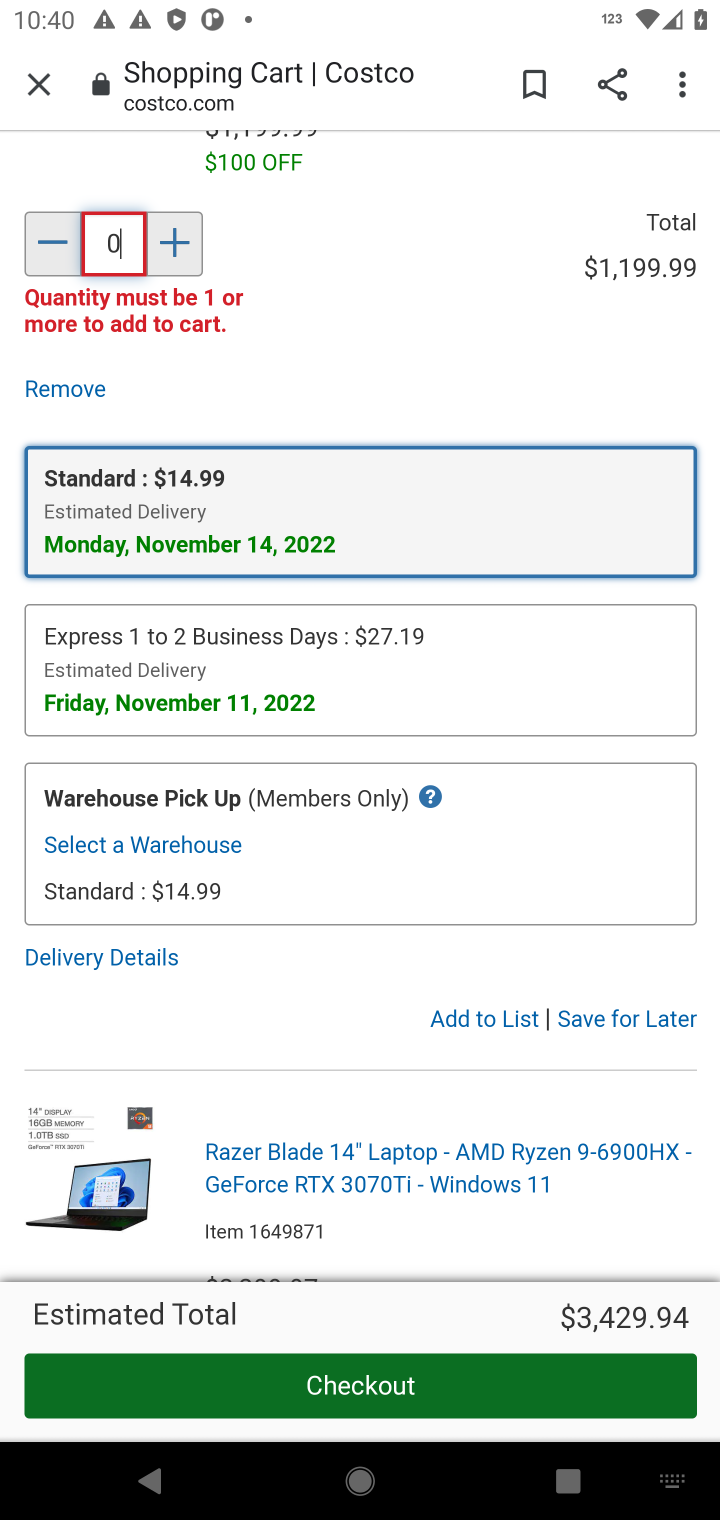
Step 31: click (403, 1387)
Your task to perform on an android device: Clear all items from cart on costco.com. Add "razer blade" to the cart on costco.com, then select checkout. Image 32: 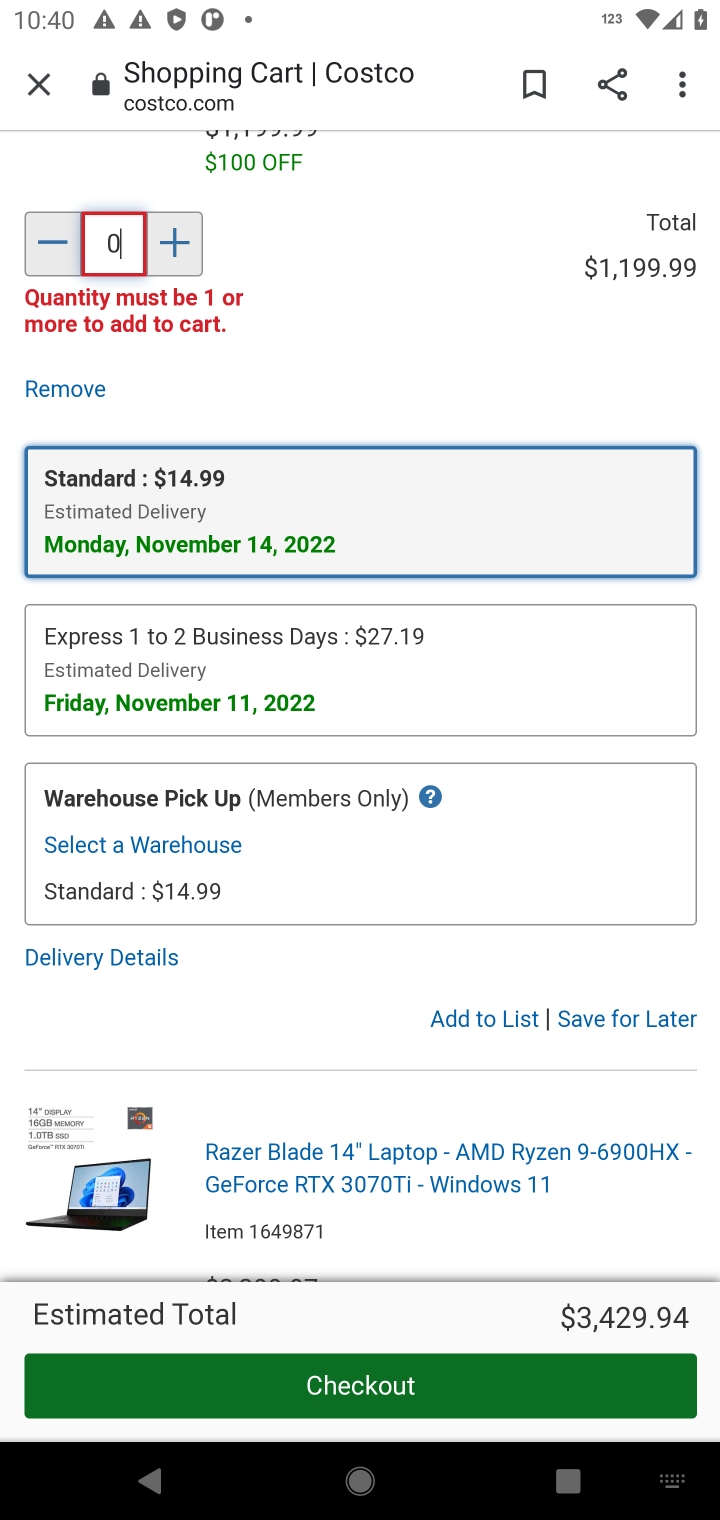
Step 32: click (76, 384)
Your task to perform on an android device: Clear all items from cart on costco.com. Add "razer blade" to the cart on costco.com, then select checkout. Image 33: 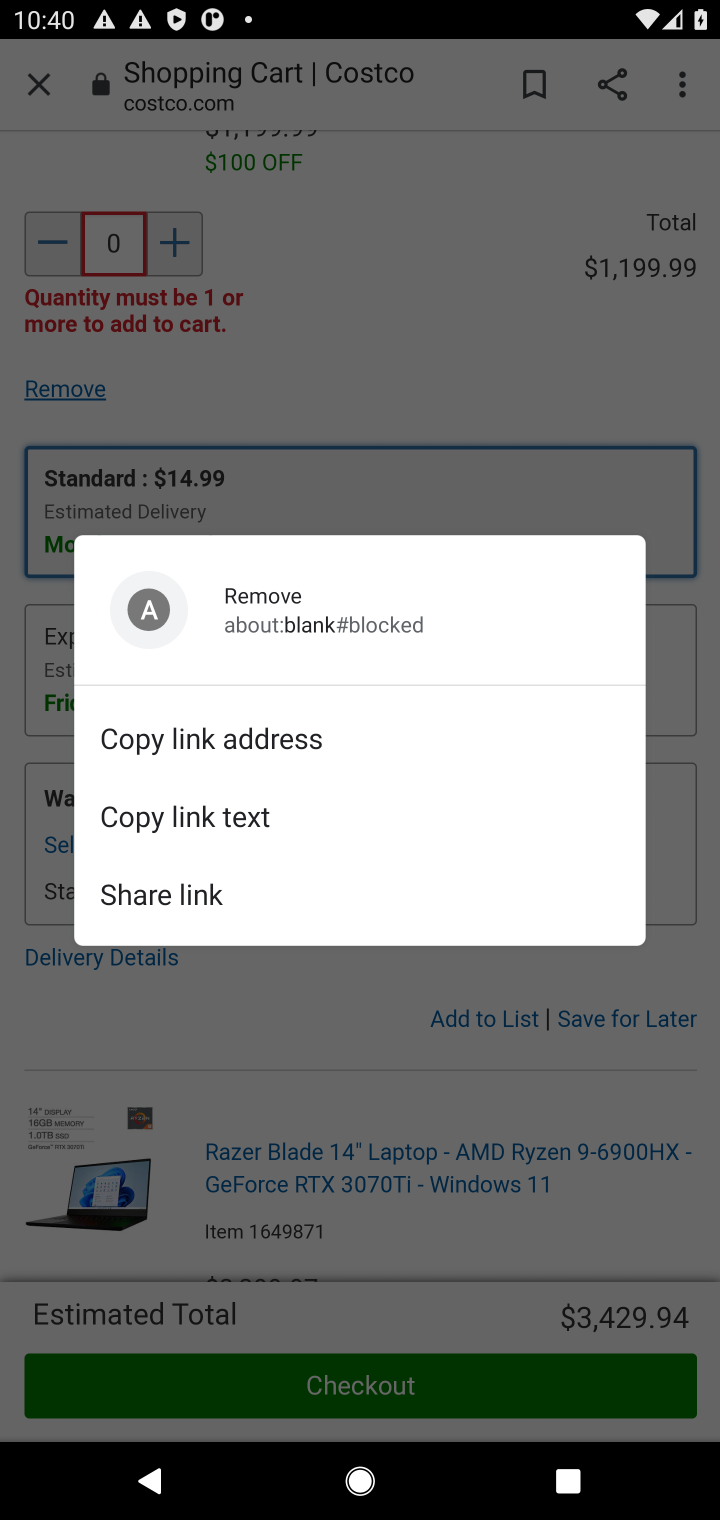
Step 33: click (76, 384)
Your task to perform on an android device: Clear all items from cart on costco.com. Add "razer blade" to the cart on costco.com, then select checkout. Image 34: 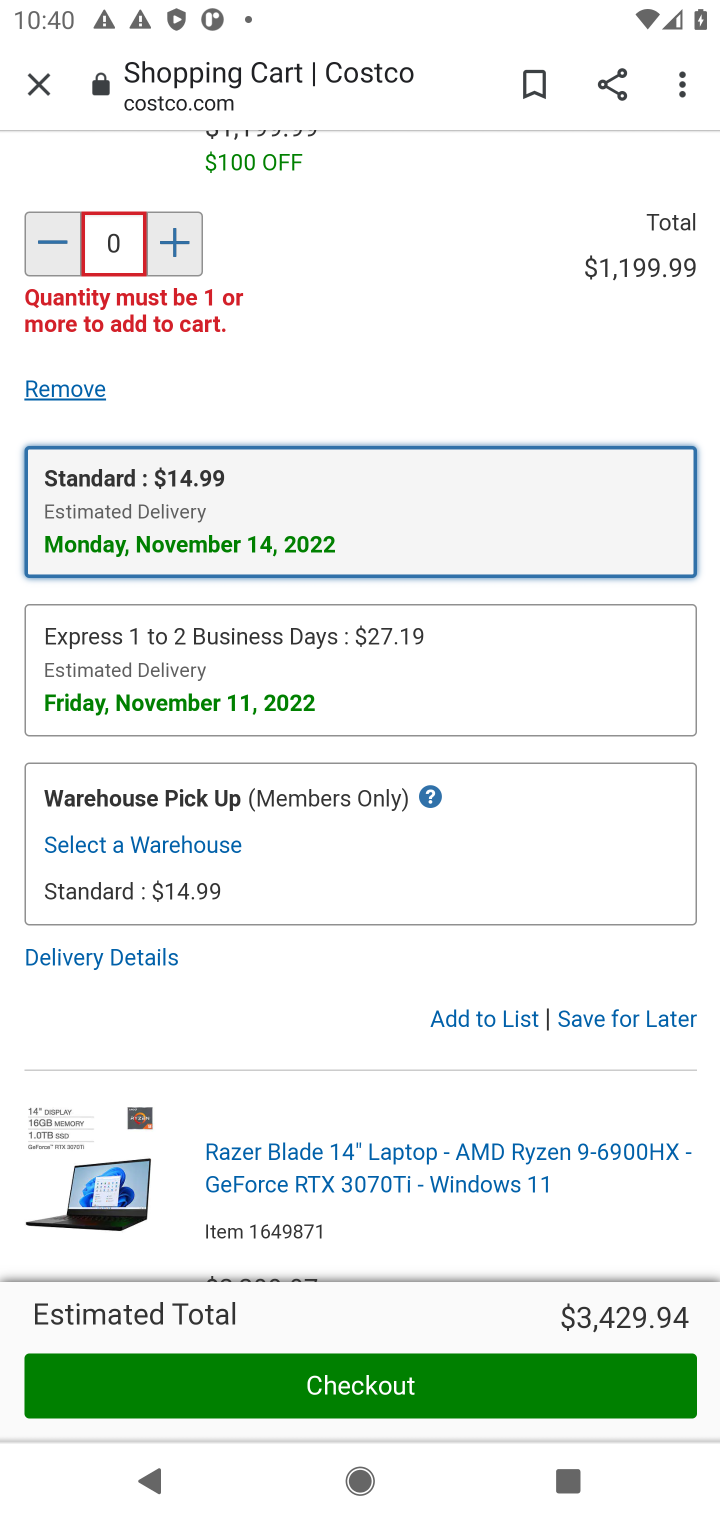
Step 34: click (69, 389)
Your task to perform on an android device: Clear all items from cart on costco.com. Add "razer blade" to the cart on costco.com, then select checkout. Image 35: 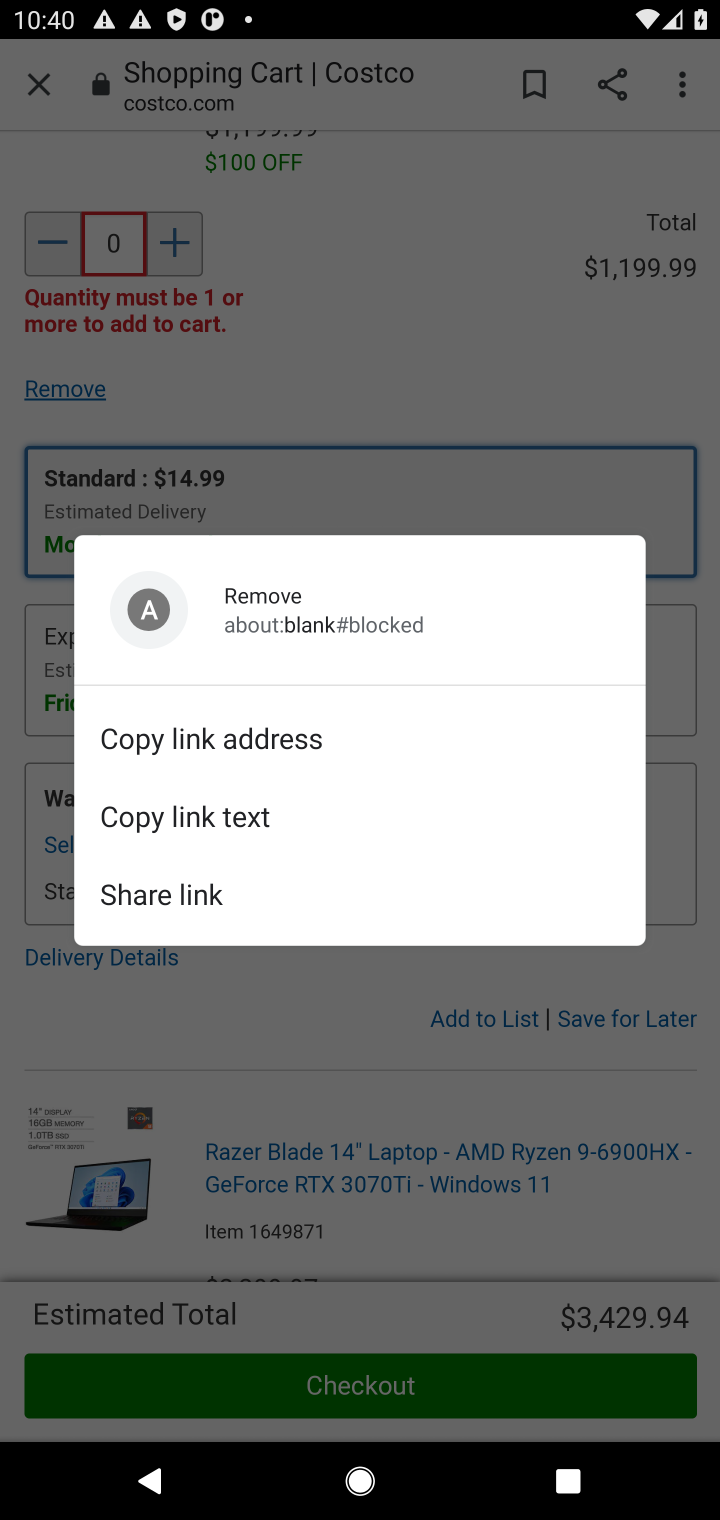
Step 35: task complete